Your task to perform on an android device: open app "eBay: The shopping marketplace" (install if not already installed) Image 0: 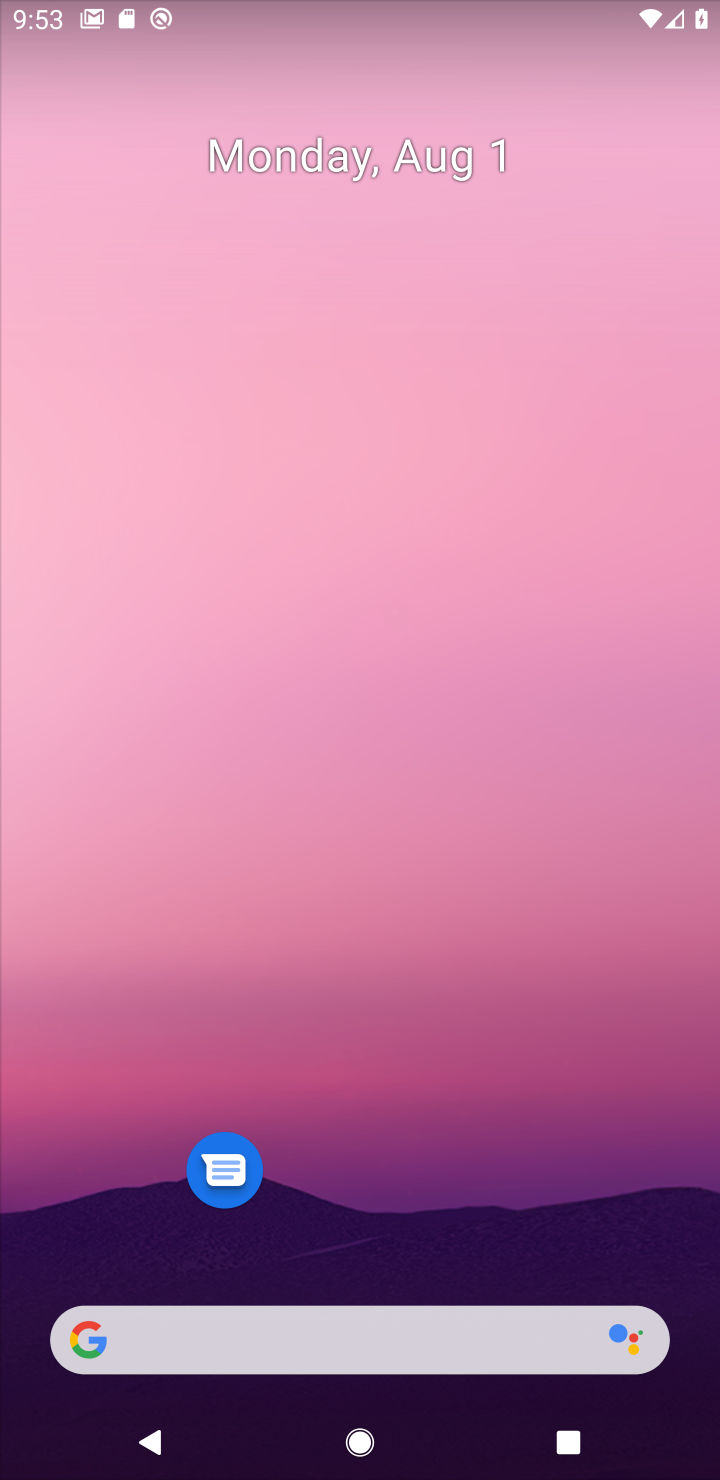
Step 0: drag from (249, 1413) to (446, 725)
Your task to perform on an android device: open app "eBay: The shopping marketplace" (install if not already installed) Image 1: 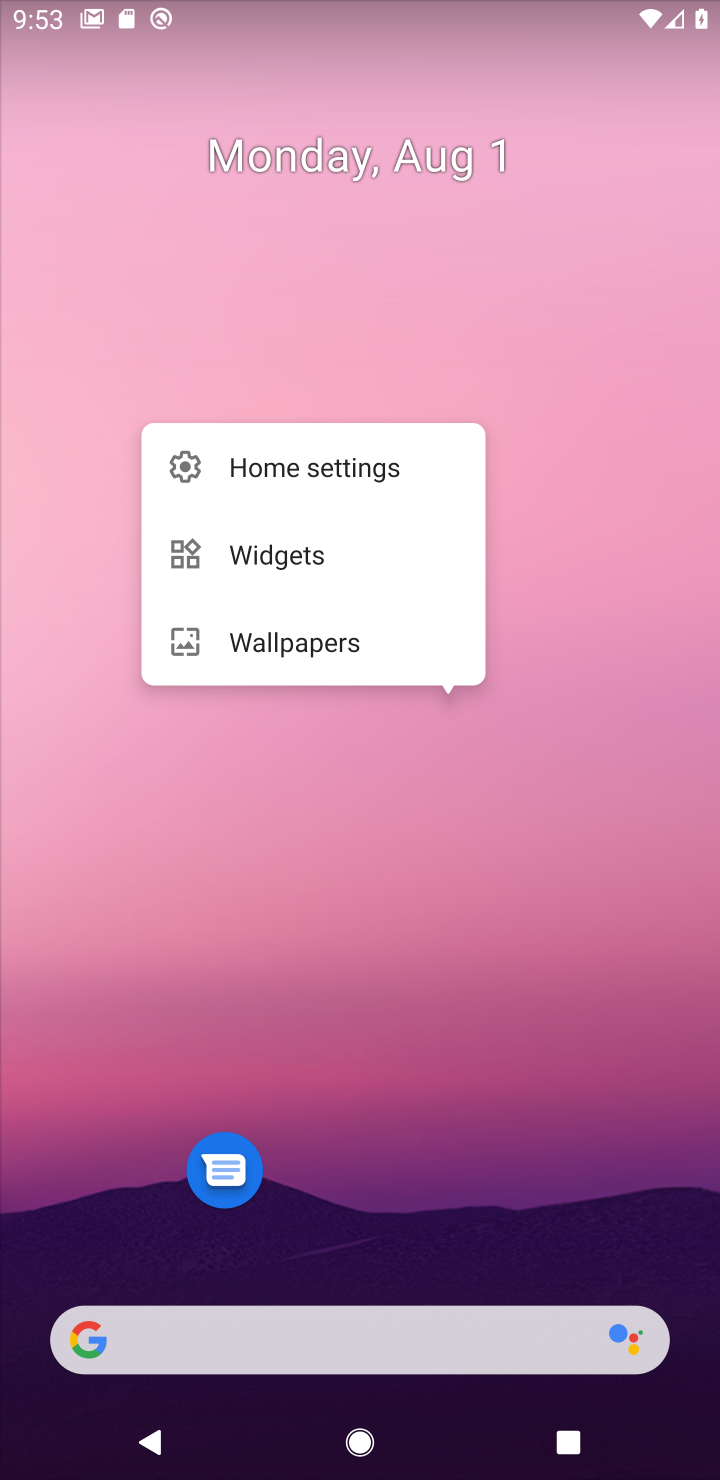
Step 1: drag from (199, 1251) to (450, 490)
Your task to perform on an android device: open app "eBay: The shopping marketplace" (install if not already installed) Image 2: 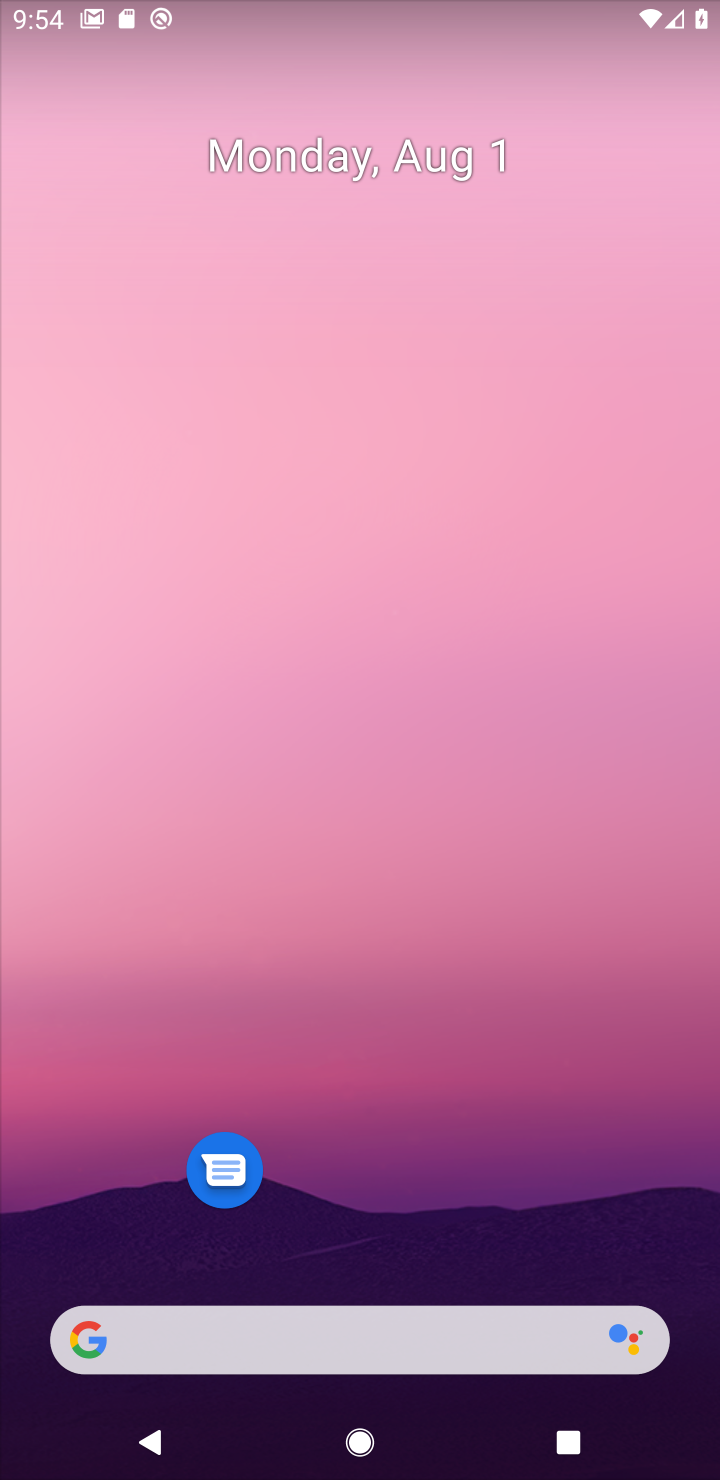
Step 2: click (360, 340)
Your task to perform on an android device: open app "eBay: The shopping marketplace" (install if not already installed) Image 3: 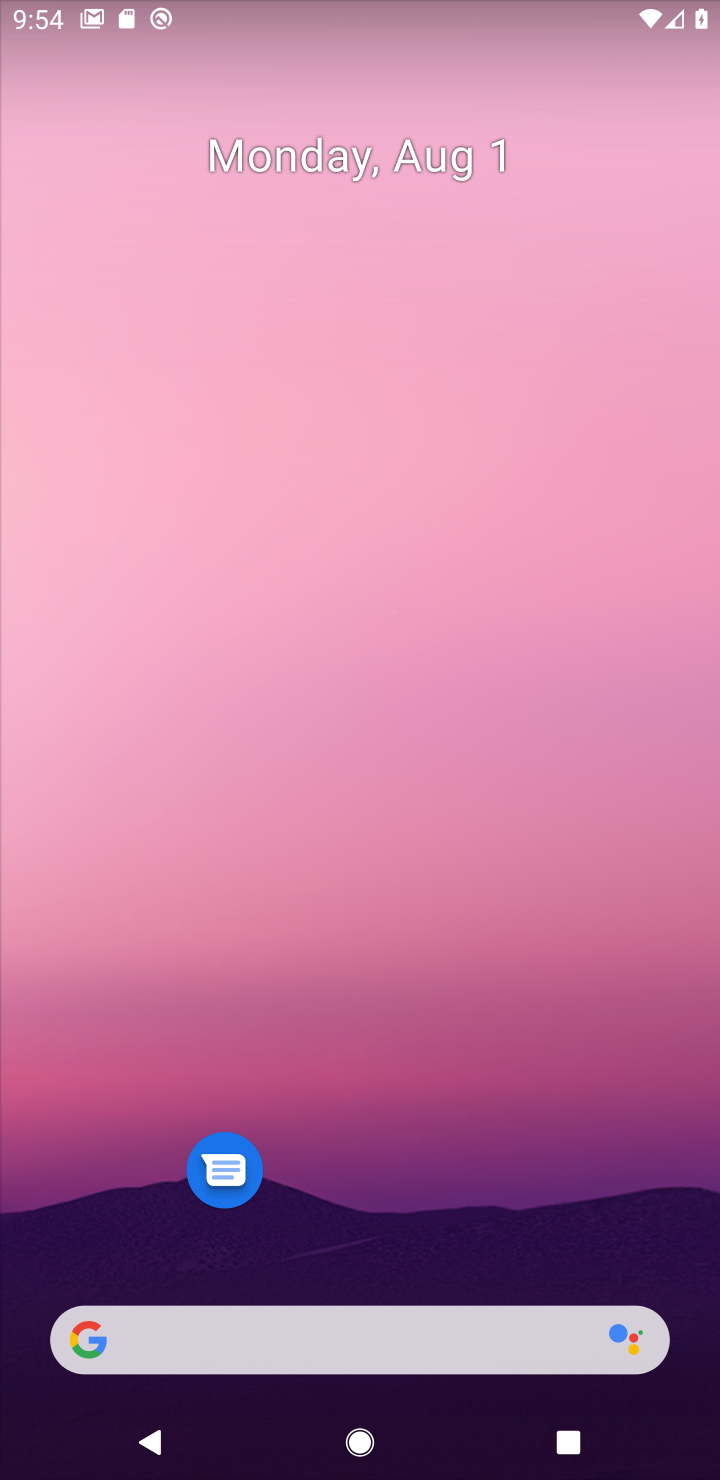
Step 3: drag from (299, 1039) to (220, 163)
Your task to perform on an android device: open app "eBay: The shopping marketplace" (install if not already installed) Image 4: 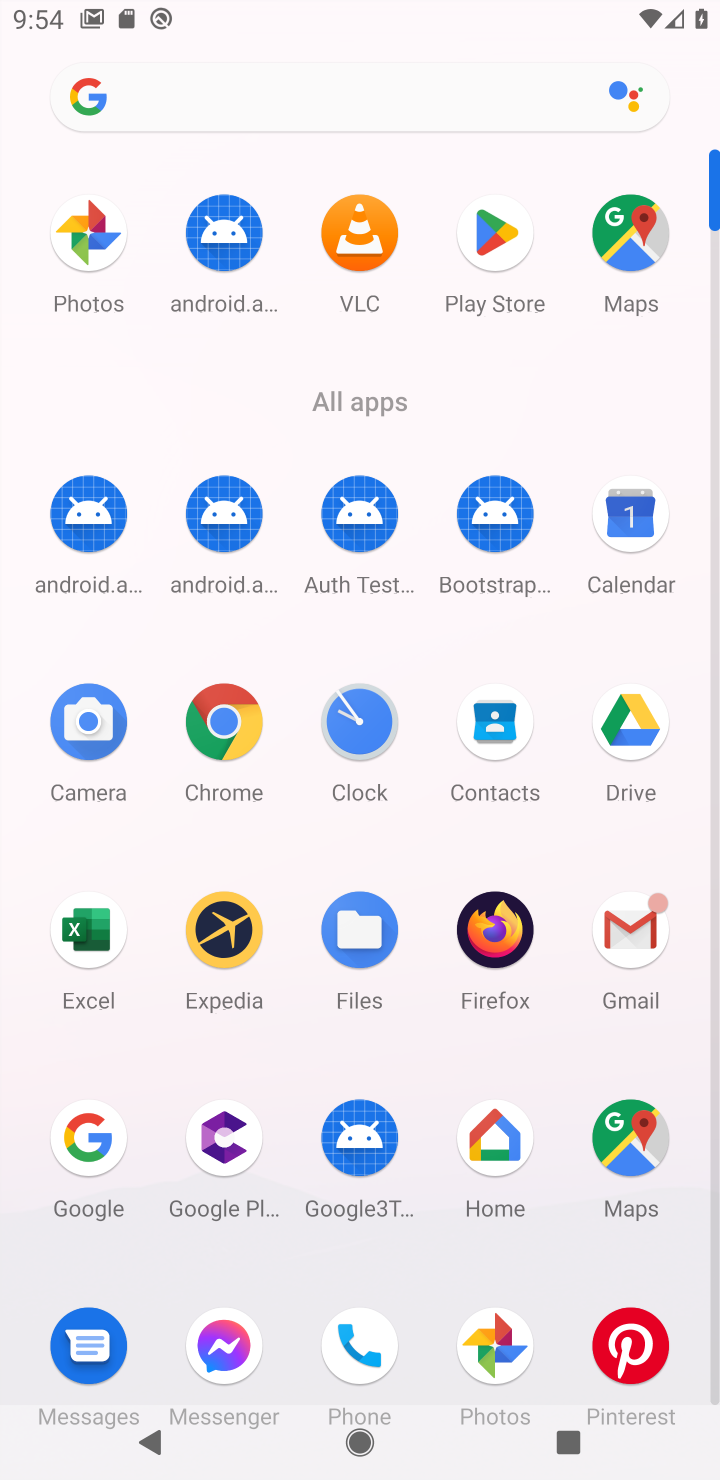
Step 4: click (501, 236)
Your task to perform on an android device: open app "eBay: The shopping marketplace" (install if not already installed) Image 5: 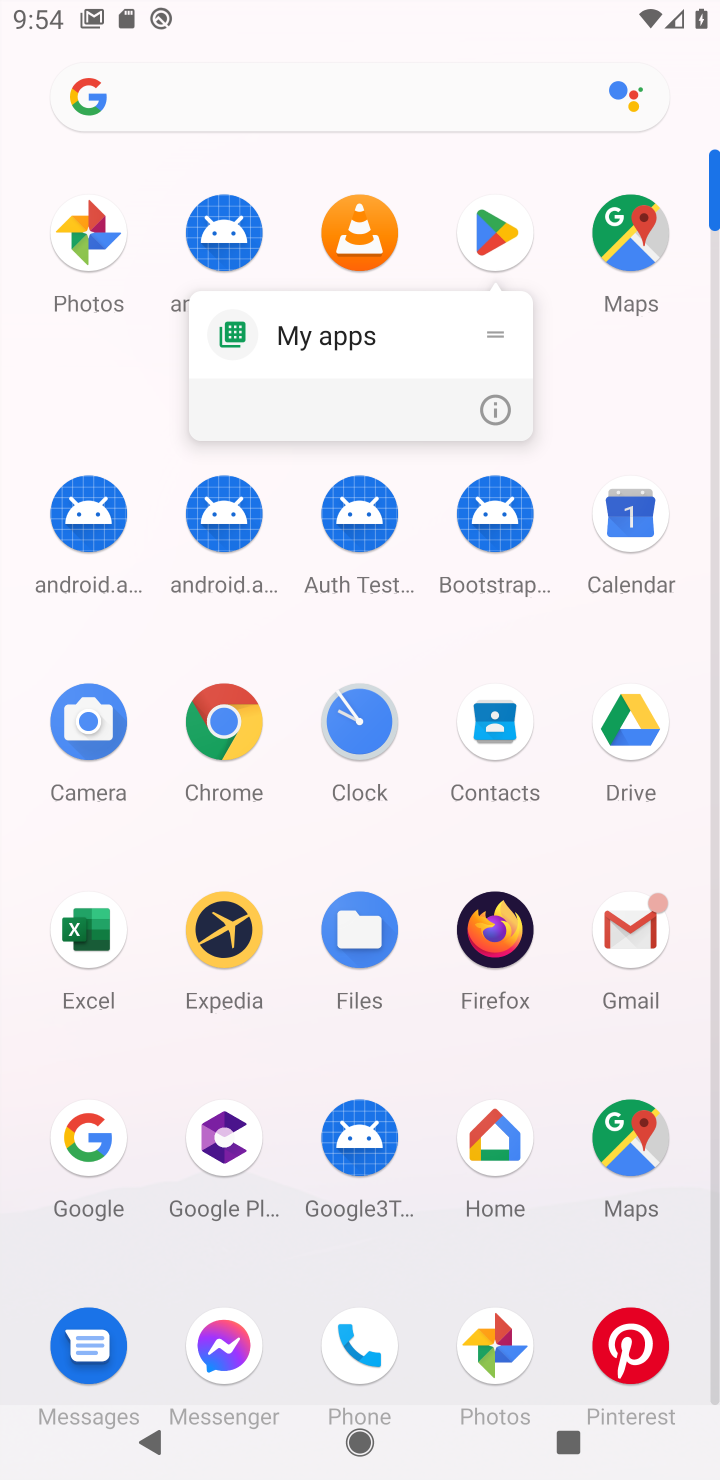
Step 5: click (492, 232)
Your task to perform on an android device: open app "eBay: The shopping marketplace" (install if not already installed) Image 6: 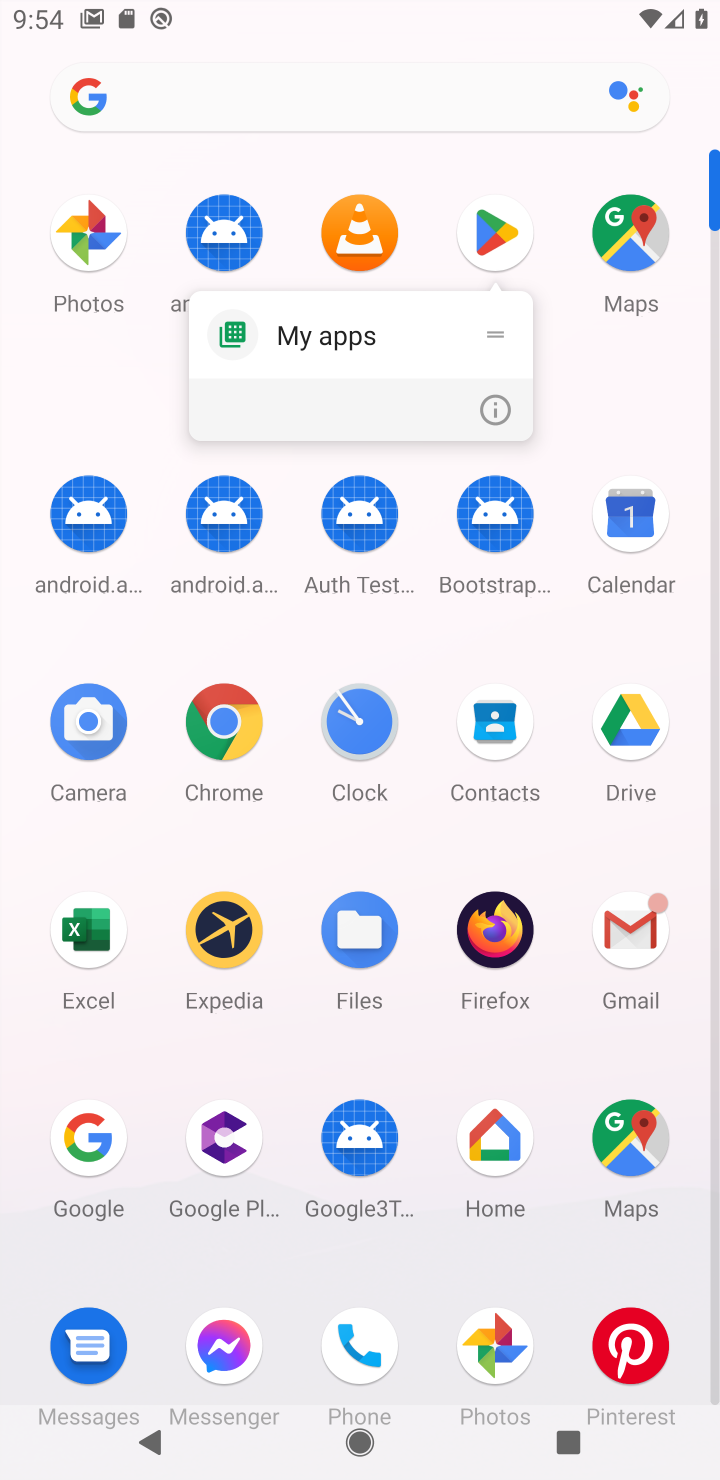
Step 6: click (491, 243)
Your task to perform on an android device: open app "eBay: The shopping marketplace" (install if not already installed) Image 7: 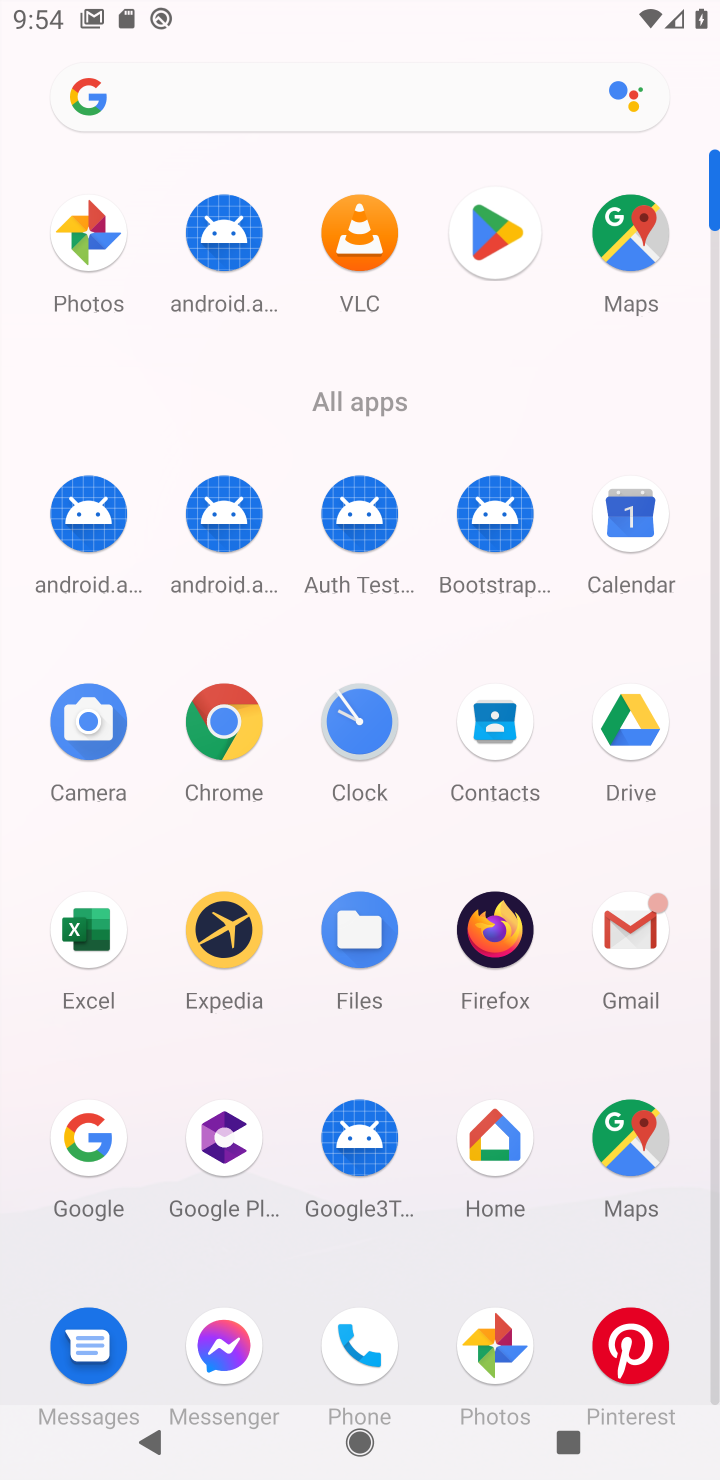
Step 7: click (495, 234)
Your task to perform on an android device: open app "eBay: The shopping marketplace" (install if not already installed) Image 8: 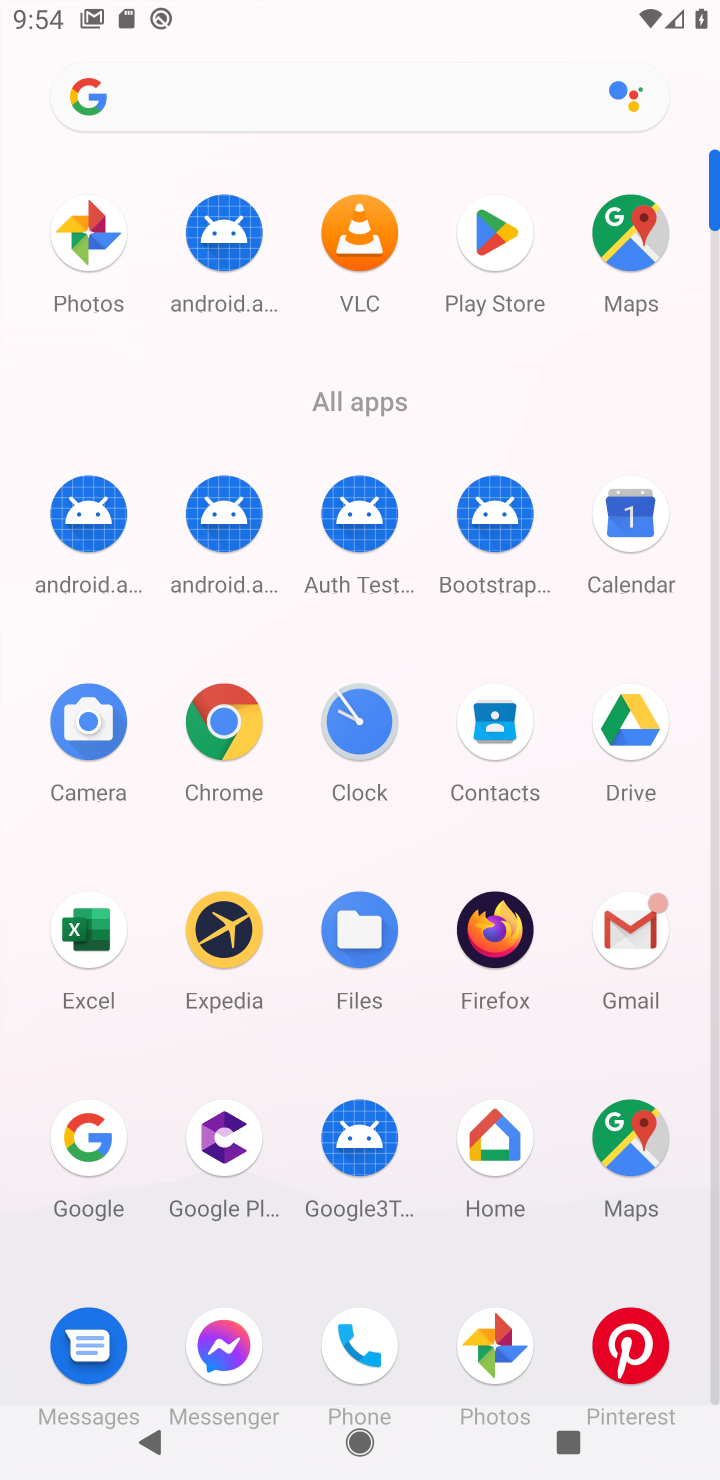
Step 8: click (495, 257)
Your task to perform on an android device: open app "eBay: The shopping marketplace" (install if not already installed) Image 9: 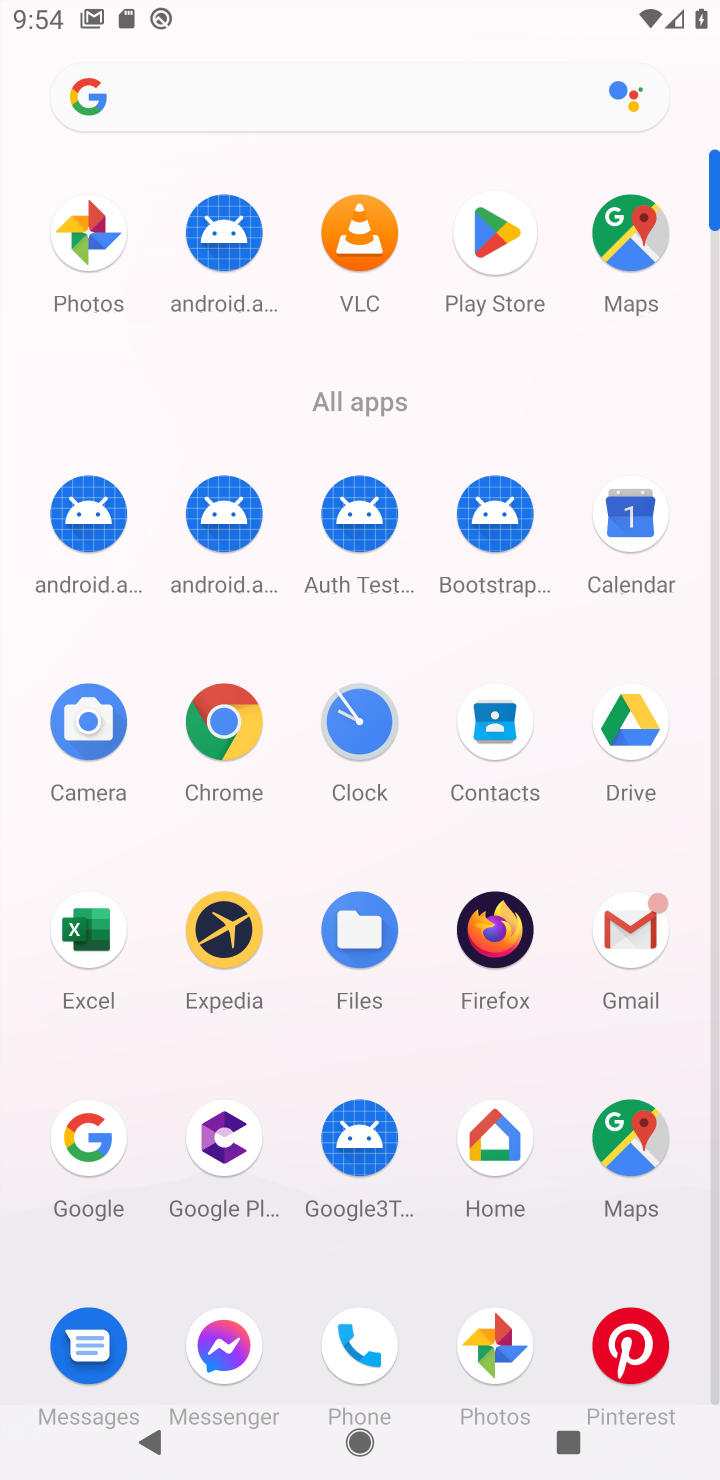
Step 9: click (515, 231)
Your task to perform on an android device: open app "eBay: The shopping marketplace" (install if not already installed) Image 10: 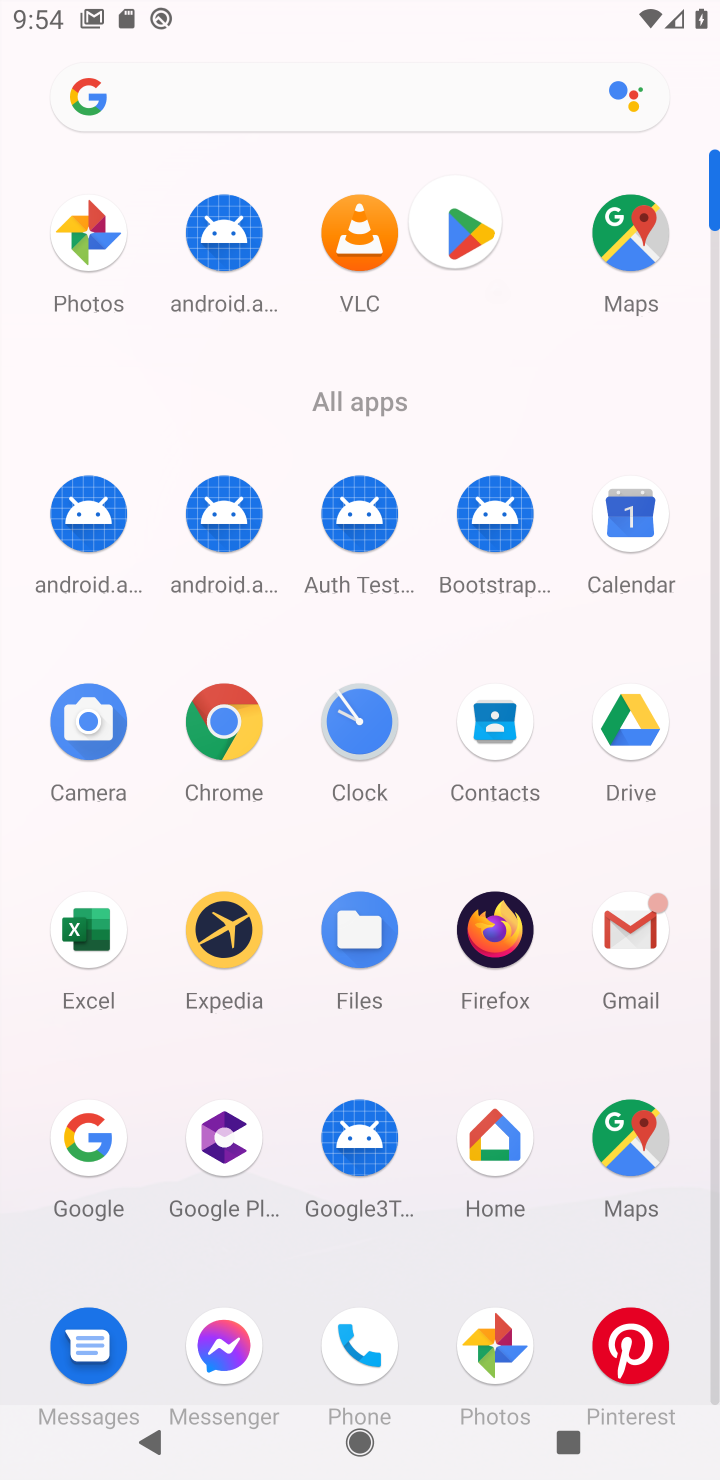
Step 10: click (495, 215)
Your task to perform on an android device: open app "eBay: The shopping marketplace" (install if not already installed) Image 11: 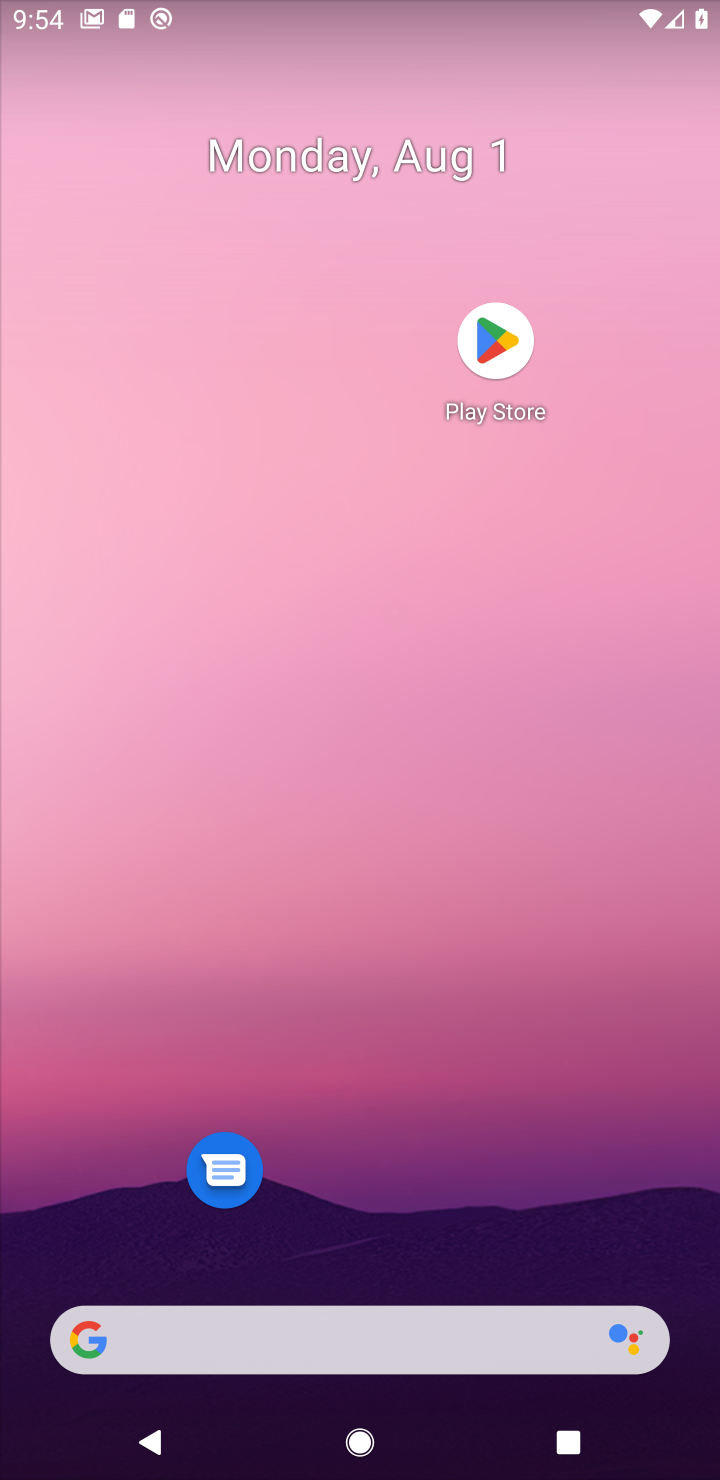
Step 11: drag from (355, 533) to (308, 258)
Your task to perform on an android device: open app "eBay: The shopping marketplace" (install if not already installed) Image 12: 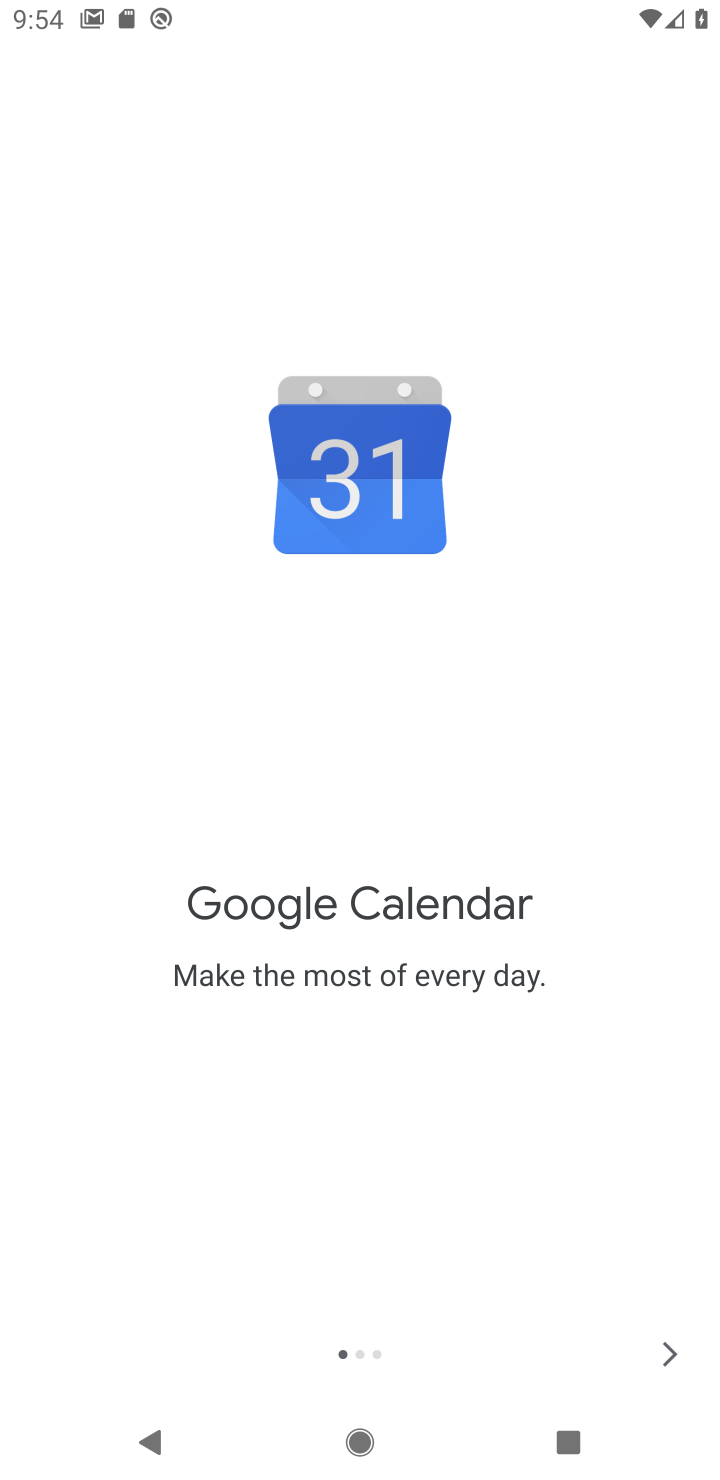
Step 12: drag from (487, 1089) to (476, 277)
Your task to perform on an android device: open app "eBay: The shopping marketplace" (install if not already installed) Image 13: 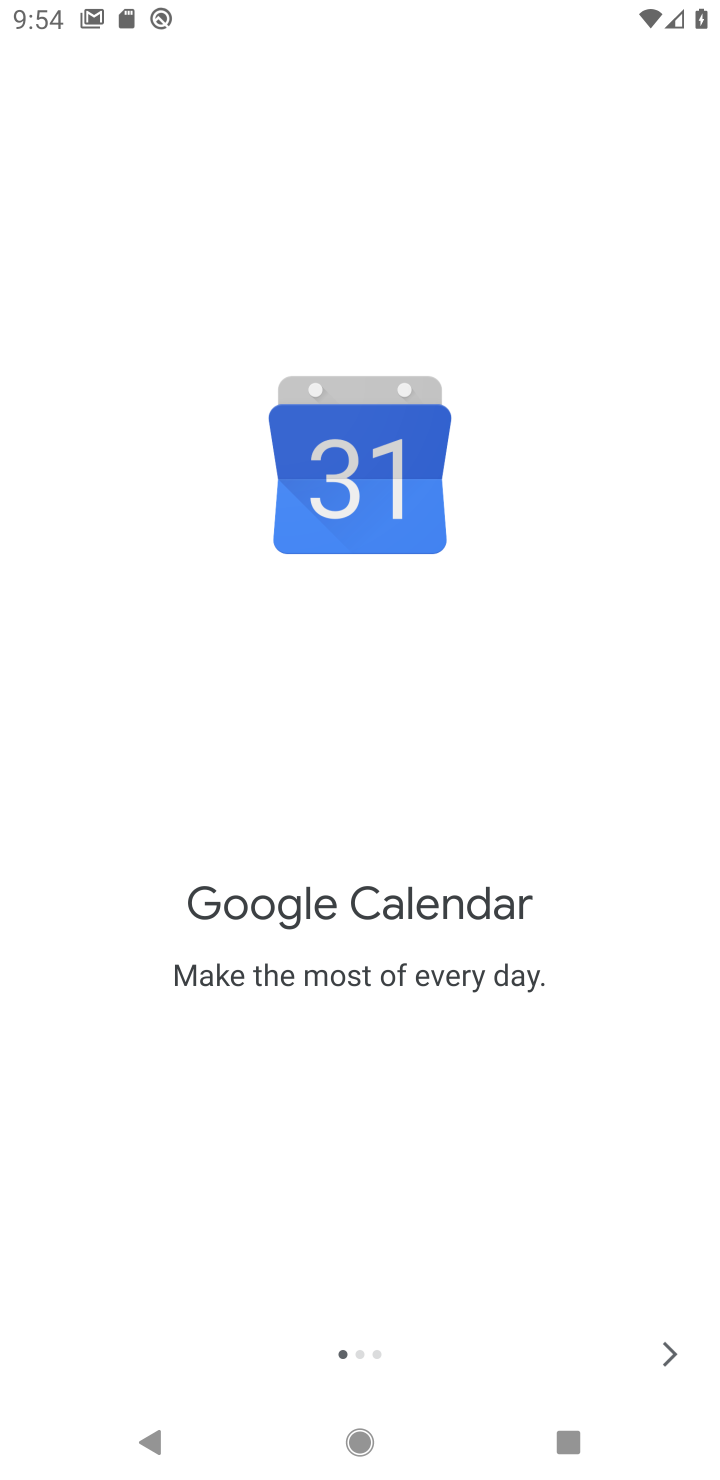
Step 13: press back button
Your task to perform on an android device: open app "eBay: The shopping marketplace" (install if not already installed) Image 14: 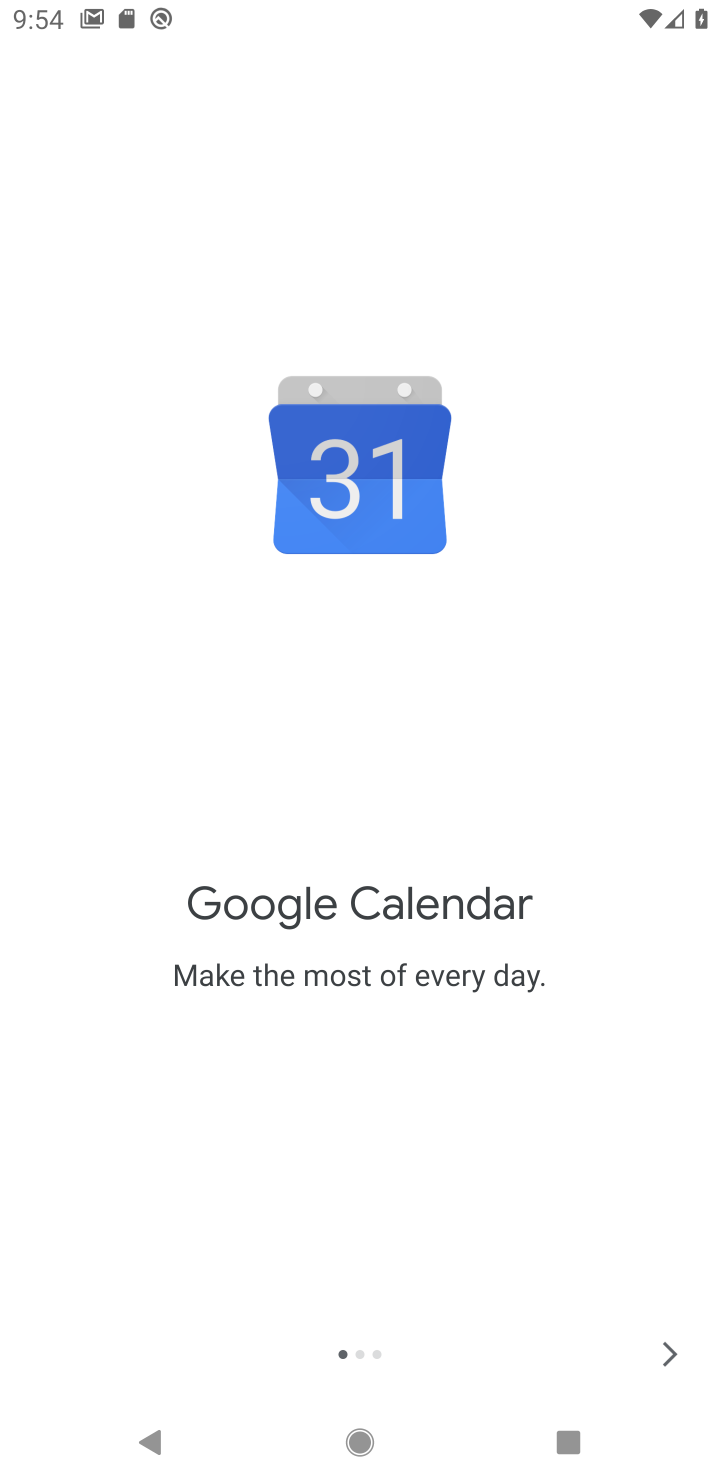
Step 14: press back button
Your task to perform on an android device: open app "eBay: The shopping marketplace" (install if not already installed) Image 15: 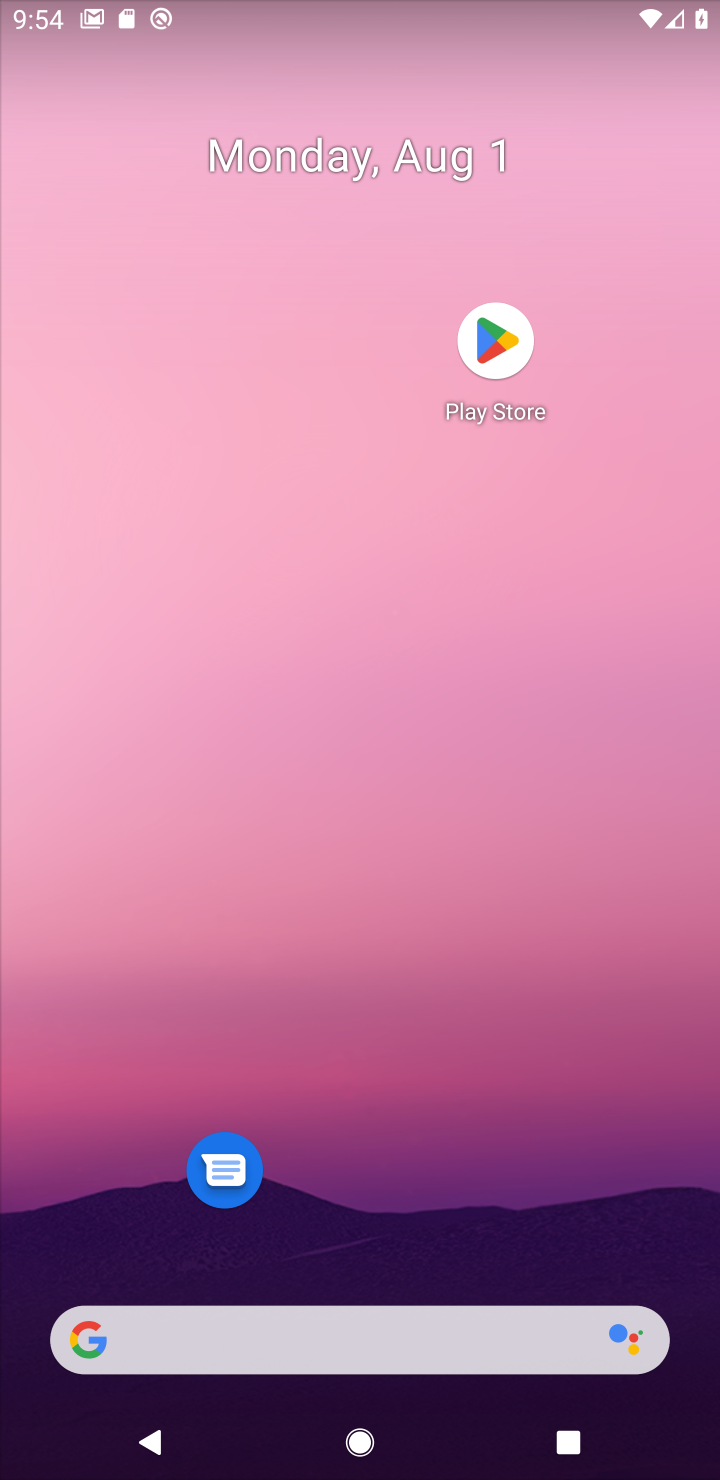
Step 15: press back button
Your task to perform on an android device: open app "eBay: The shopping marketplace" (install if not already installed) Image 16: 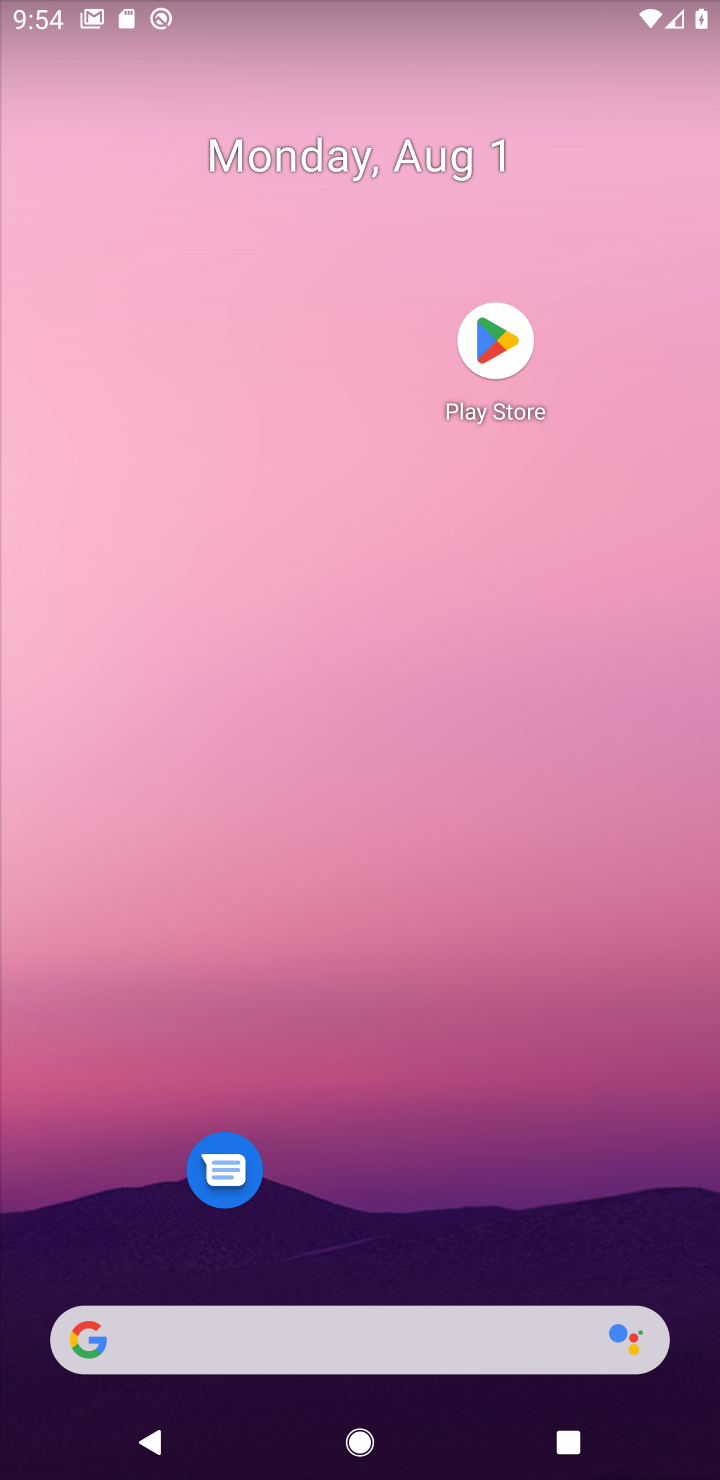
Step 16: press home button
Your task to perform on an android device: open app "eBay: The shopping marketplace" (install if not already installed) Image 17: 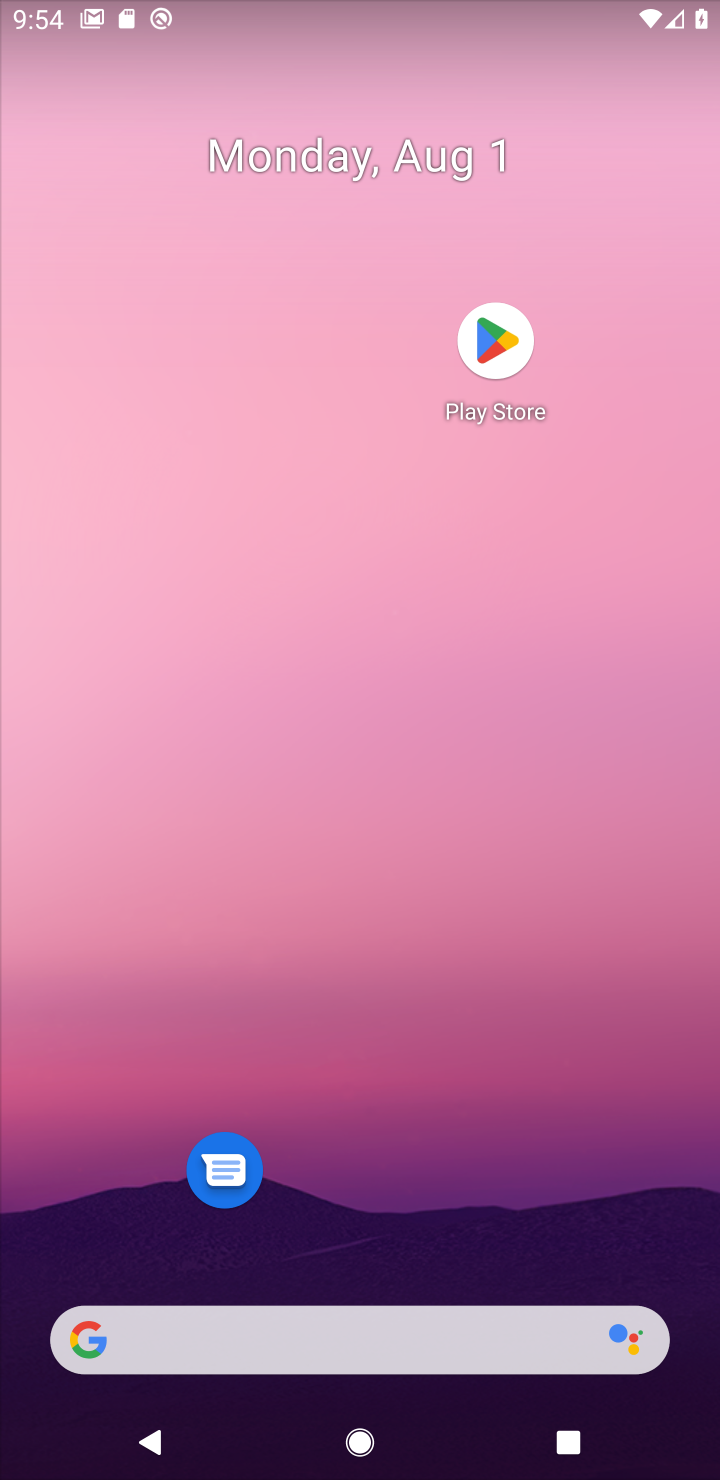
Step 17: drag from (426, 1284) to (477, 24)
Your task to perform on an android device: open app "eBay: The shopping marketplace" (install if not already installed) Image 18: 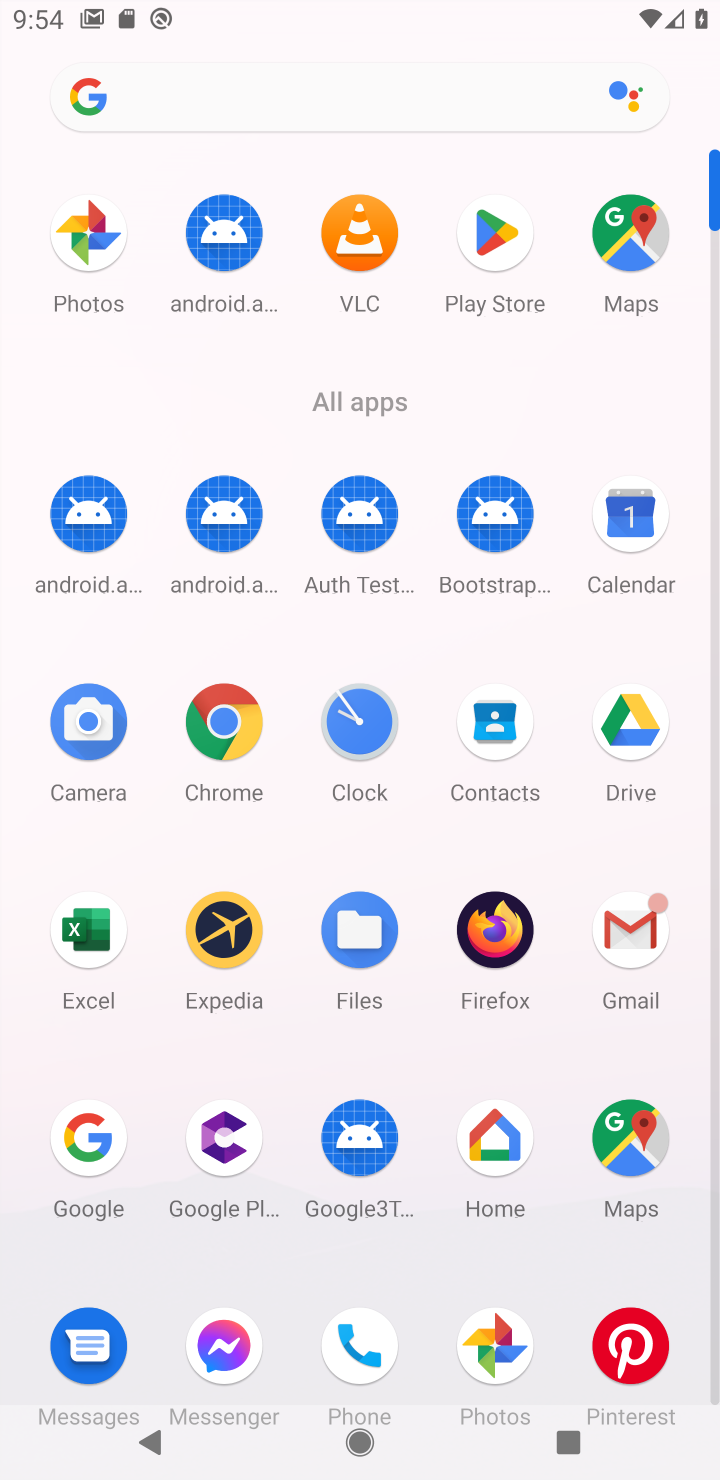
Step 18: drag from (486, 673) to (489, 10)
Your task to perform on an android device: open app "eBay: The shopping marketplace" (install if not already installed) Image 19: 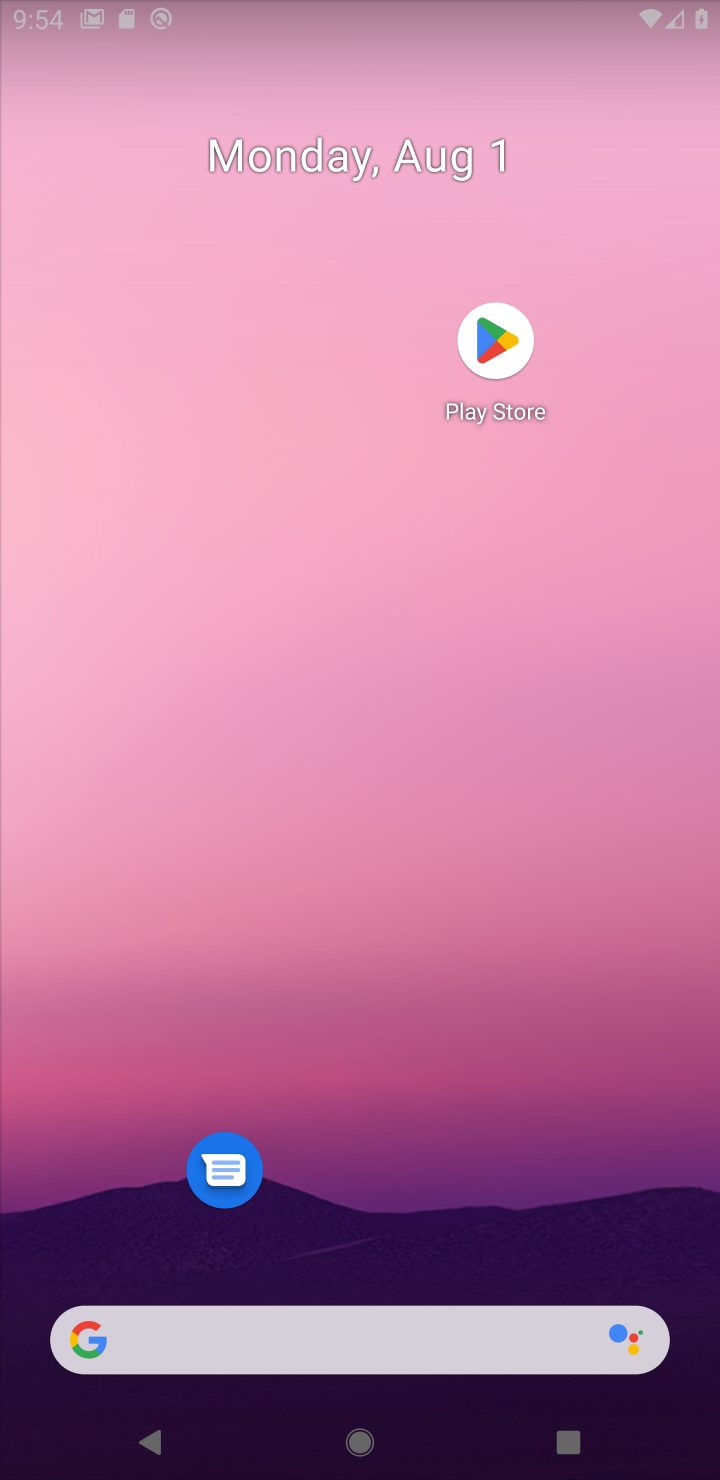
Step 19: click (496, 235)
Your task to perform on an android device: open app "eBay: The shopping marketplace" (install if not already installed) Image 20: 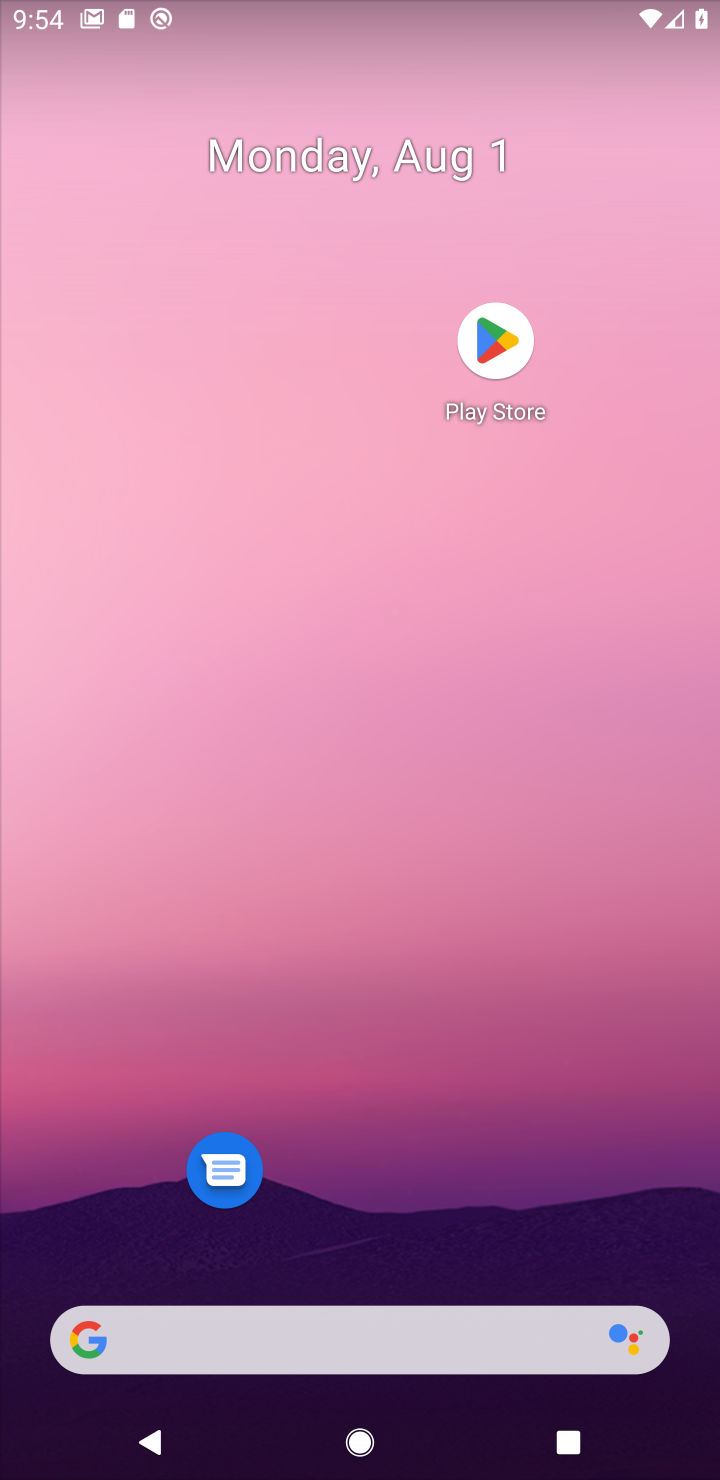
Step 20: click (496, 235)
Your task to perform on an android device: open app "eBay: The shopping marketplace" (install if not already installed) Image 21: 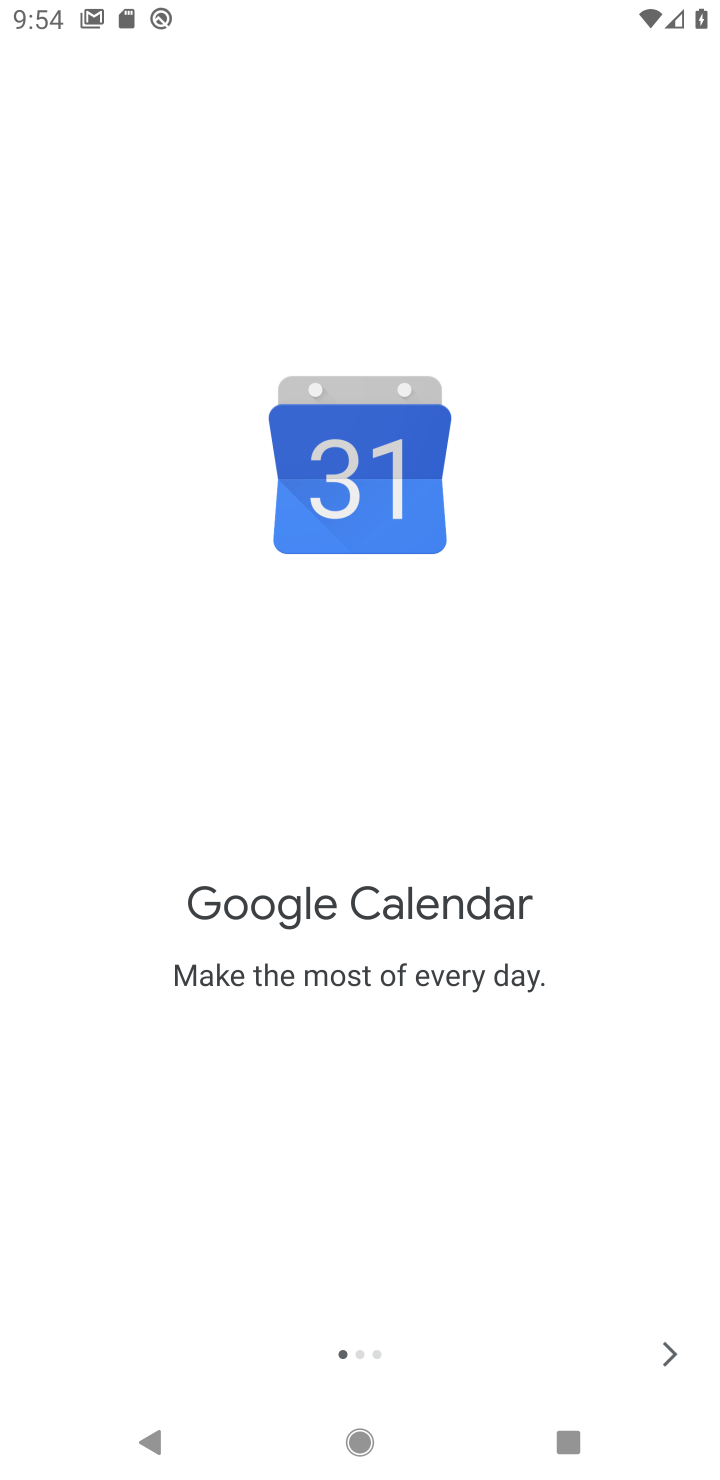
Step 21: drag from (396, 1121) to (271, 155)
Your task to perform on an android device: open app "eBay: The shopping marketplace" (install if not already installed) Image 22: 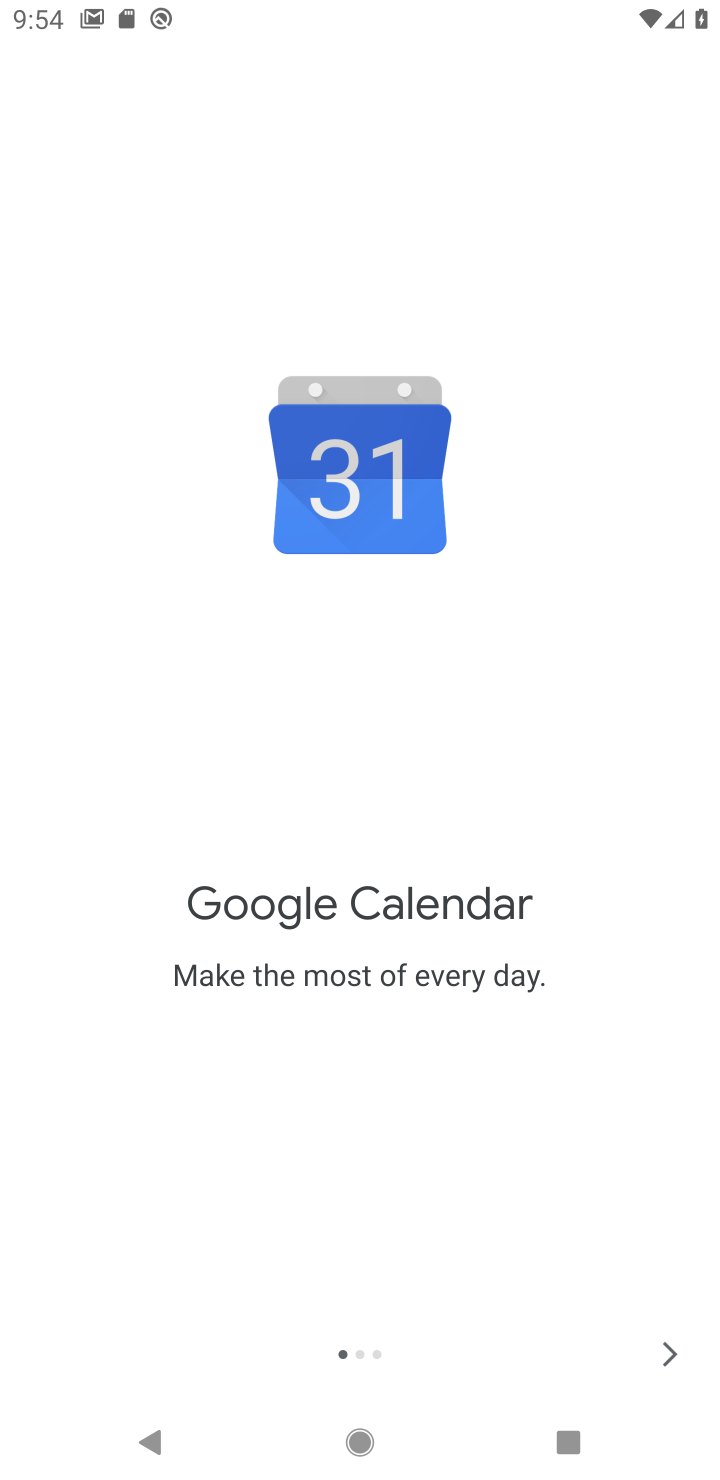
Step 22: press back button
Your task to perform on an android device: open app "eBay: The shopping marketplace" (install if not already installed) Image 23: 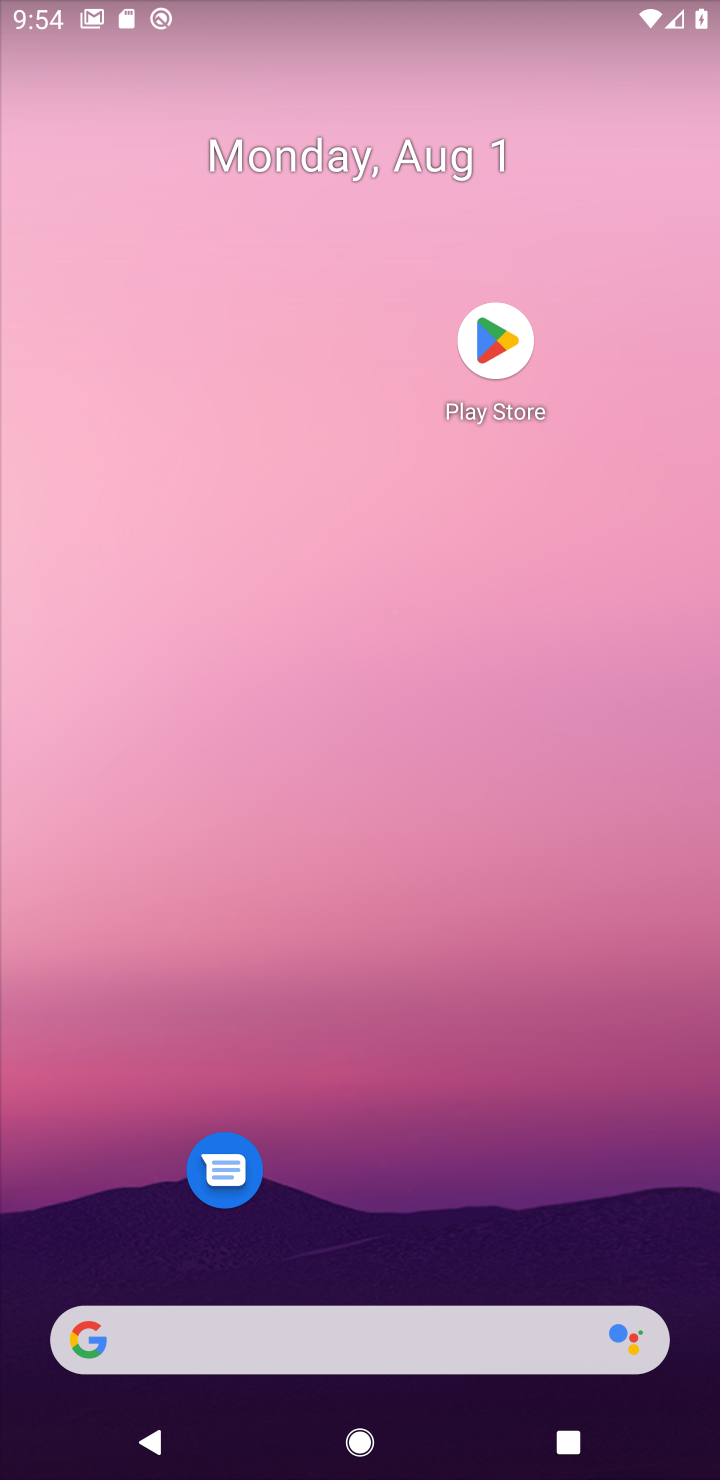
Step 23: press home button
Your task to perform on an android device: open app "eBay: The shopping marketplace" (install if not already installed) Image 24: 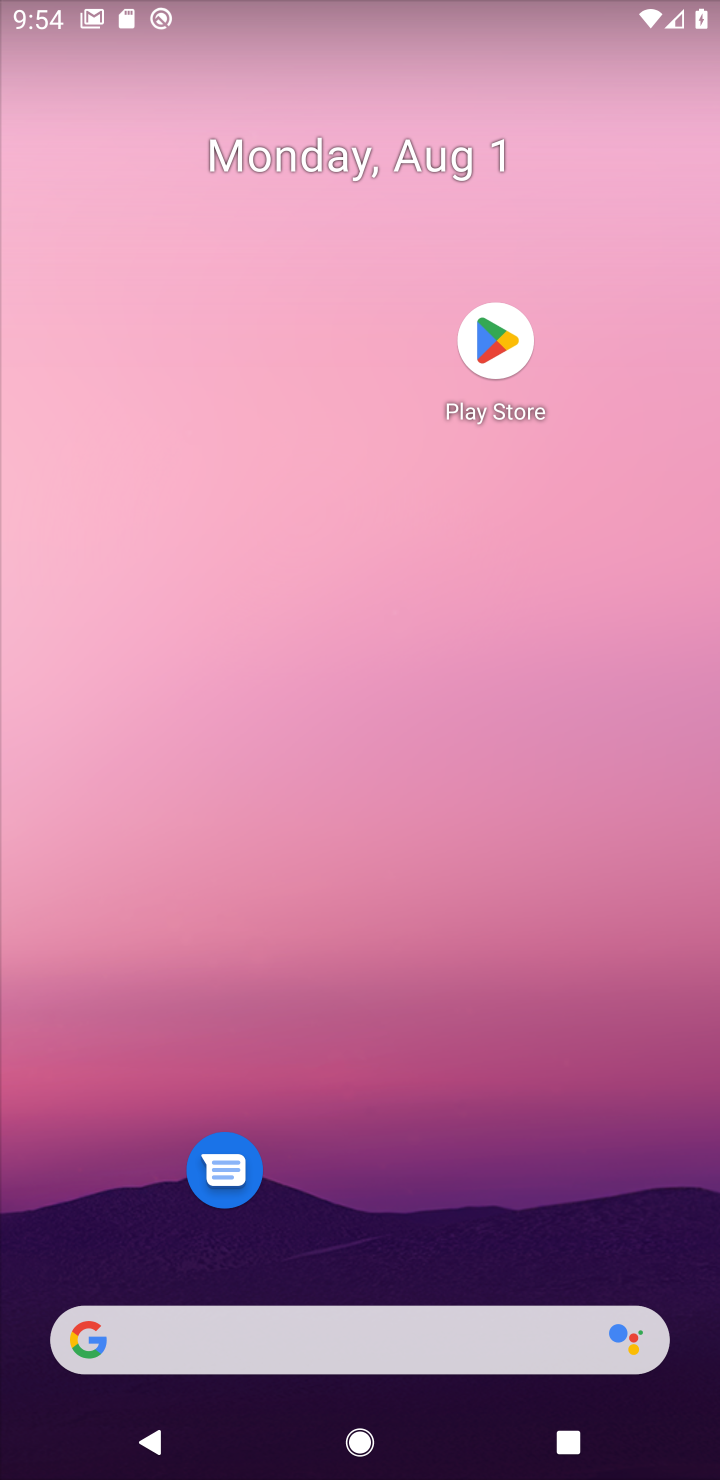
Step 24: drag from (402, 455) to (393, 365)
Your task to perform on an android device: open app "eBay: The shopping marketplace" (install if not already installed) Image 25: 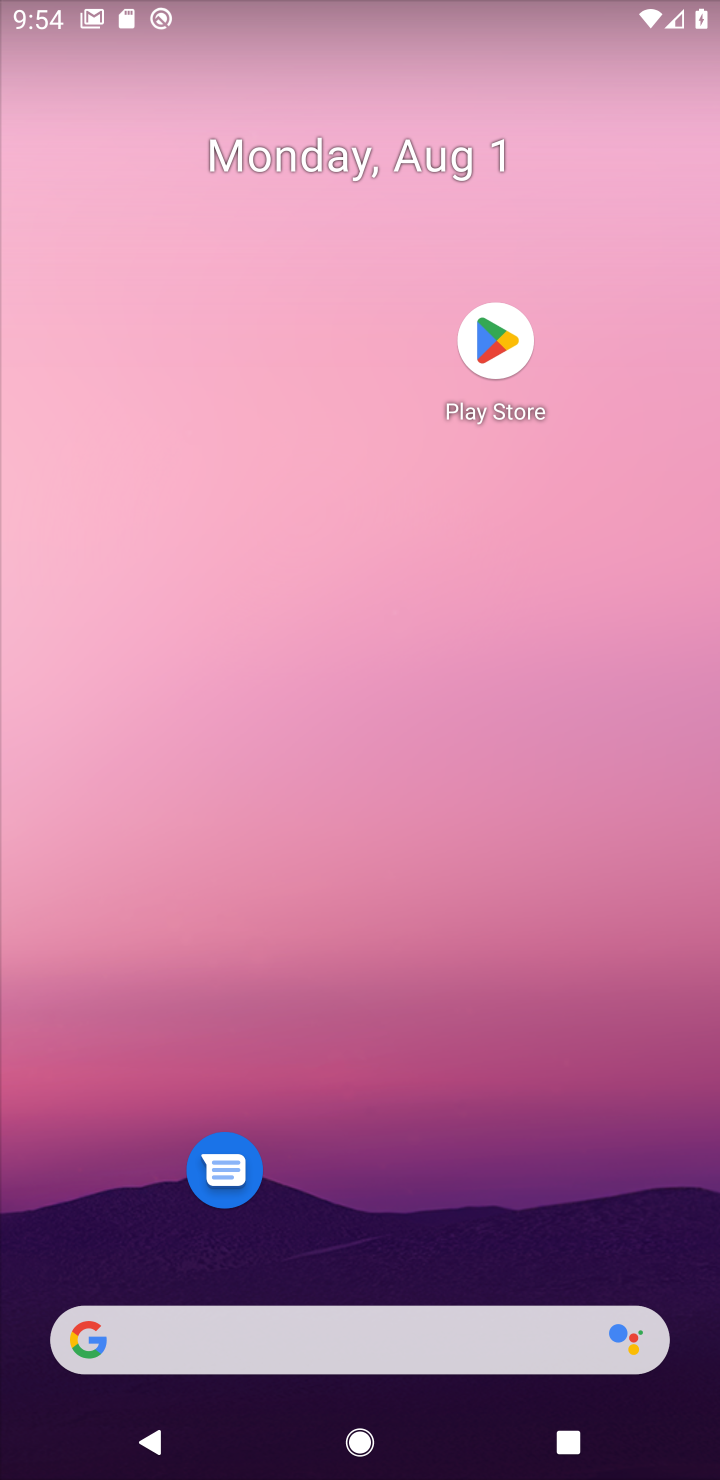
Step 25: click (543, 394)
Your task to perform on an android device: open app "eBay: The shopping marketplace" (install if not already installed) Image 26: 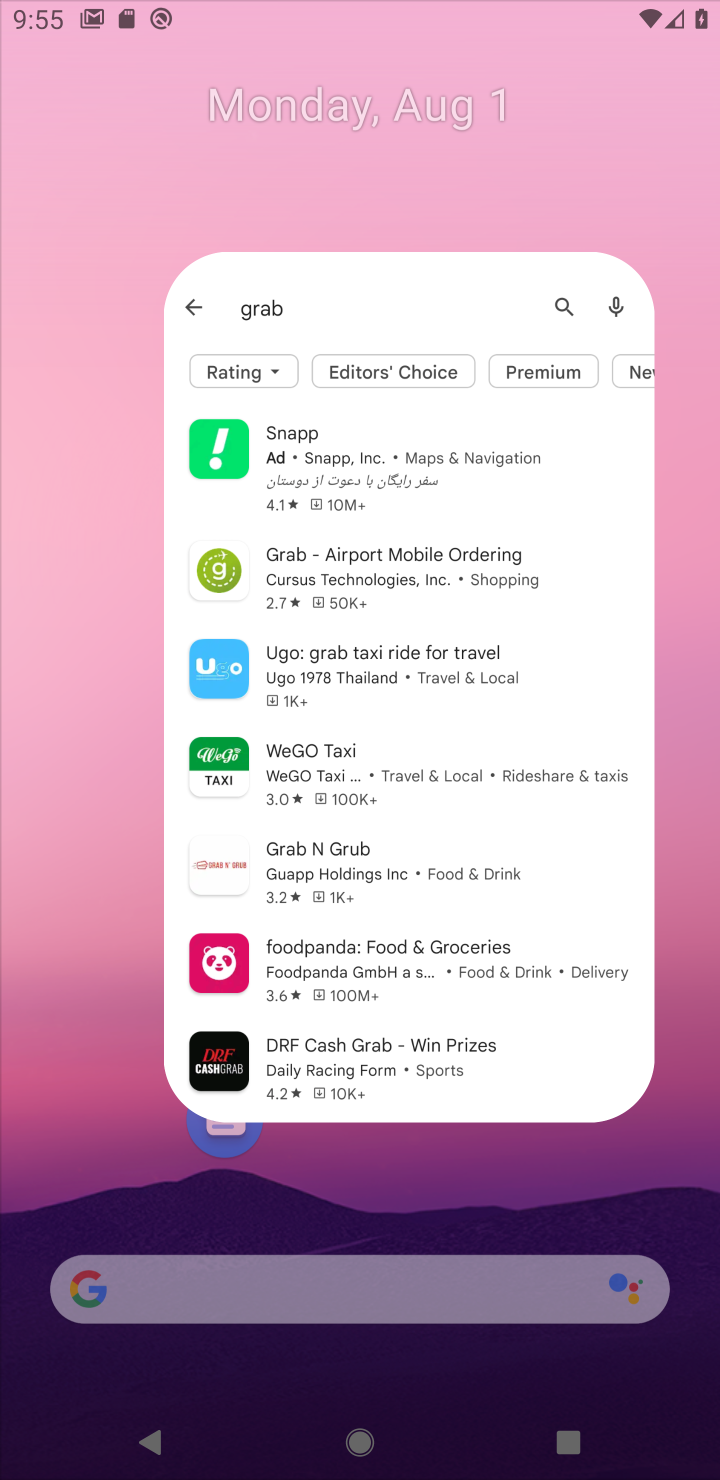
Step 26: drag from (432, 1104) to (462, 322)
Your task to perform on an android device: open app "eBay: The shopping marketplace" (install if not already installed) Image 27: 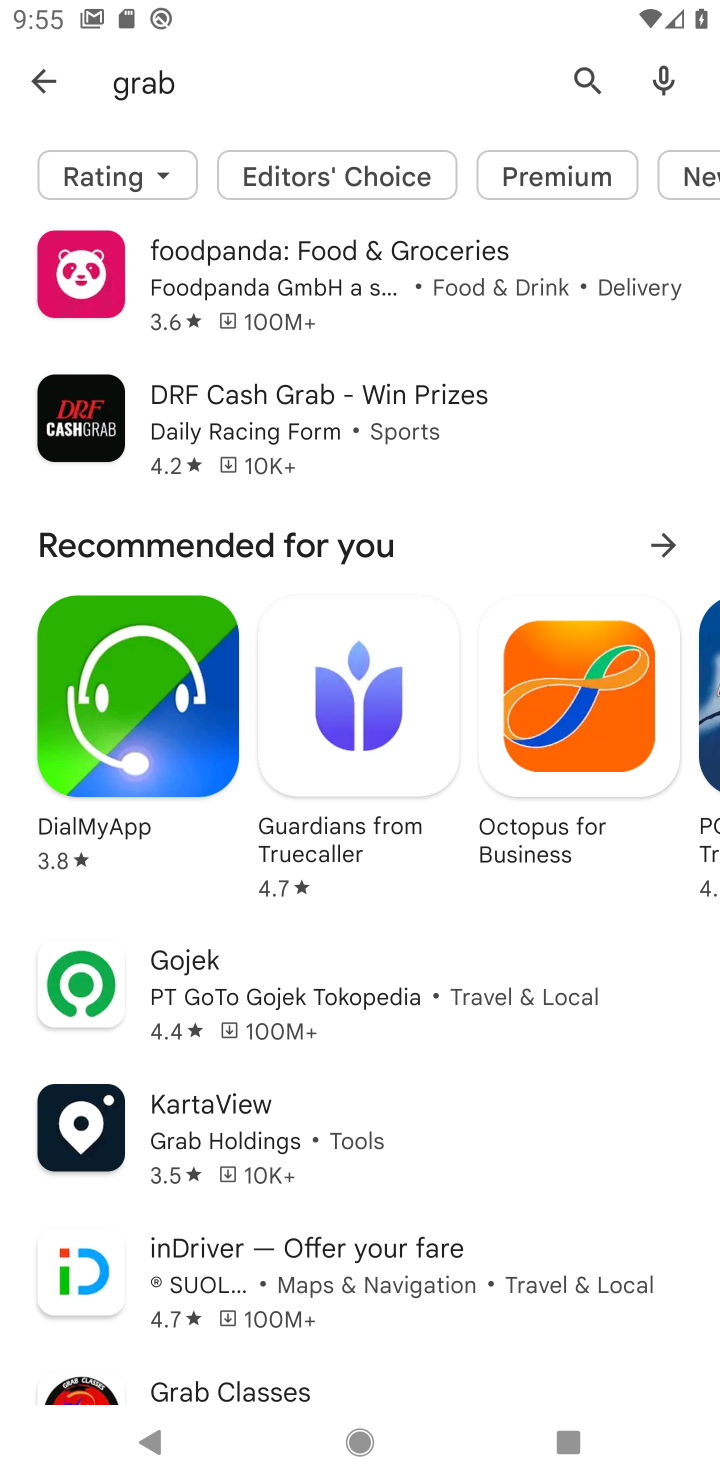
Step 27: click (27, 69)
Your task to perform on an android device: open app "eBay: The shopping marketplace" (install if not already installed) Image 28: 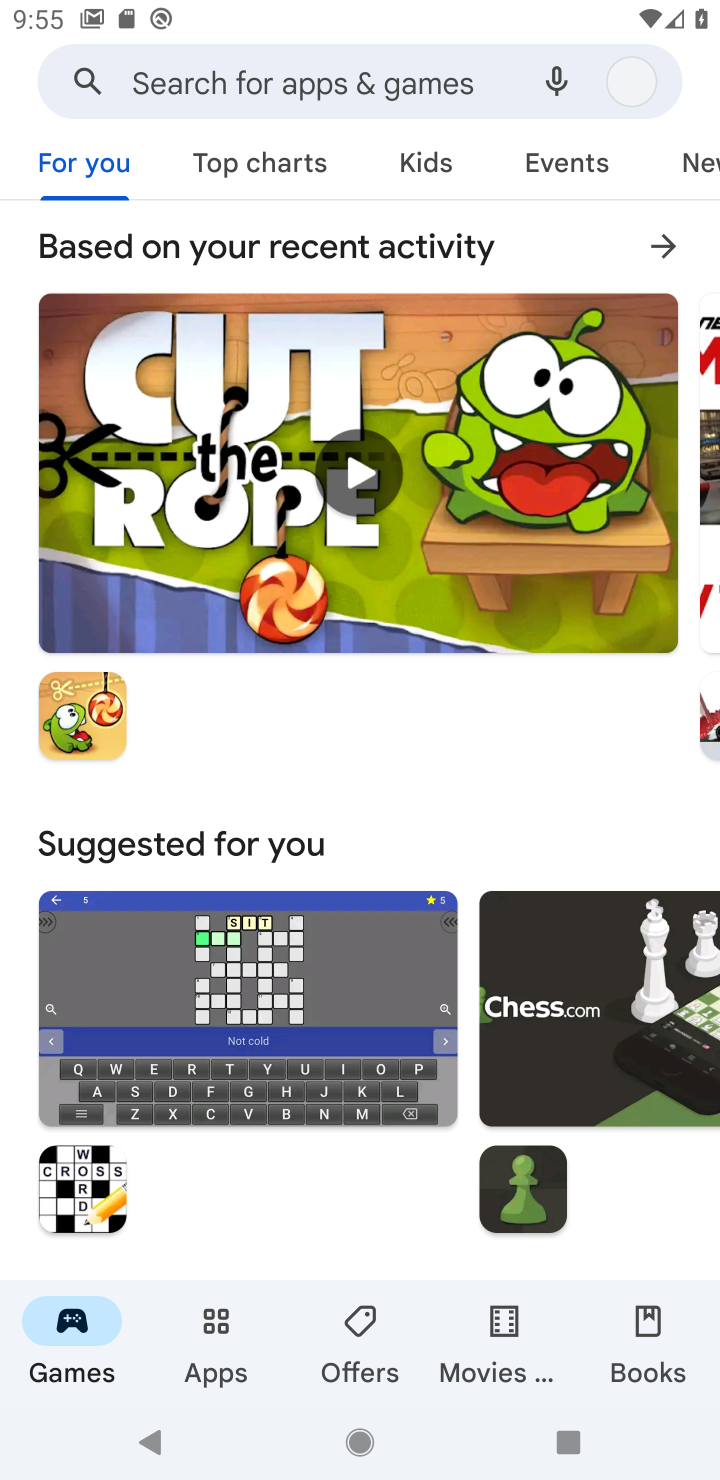
Step 28: click (190, 69)
Your task to perform on an android device: open app "eBay: The shopping marketplace" (install if not already installed) Image 29: 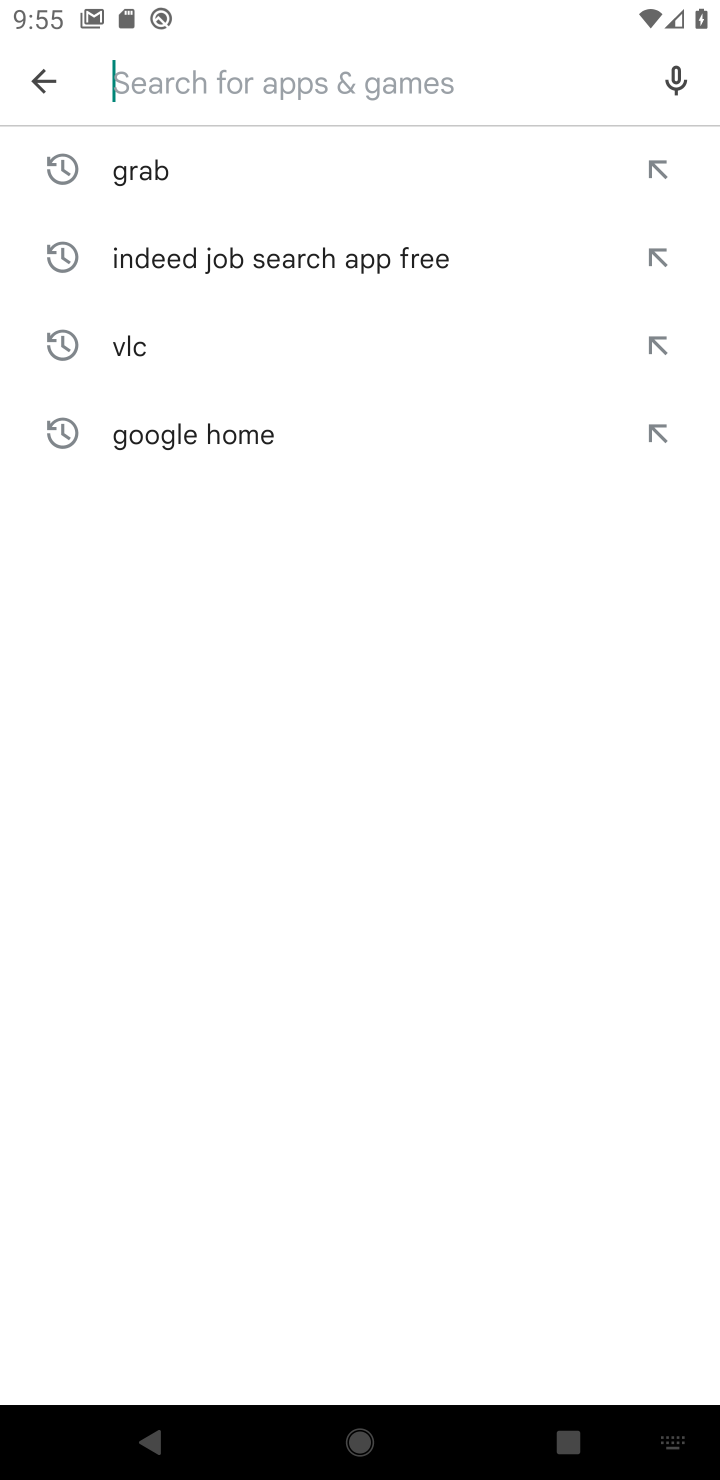
Step 29: type "ebay"
Your task to perform on an android device: open app "eBay: The shopping marketplace" (install if not already installed) Image 30: 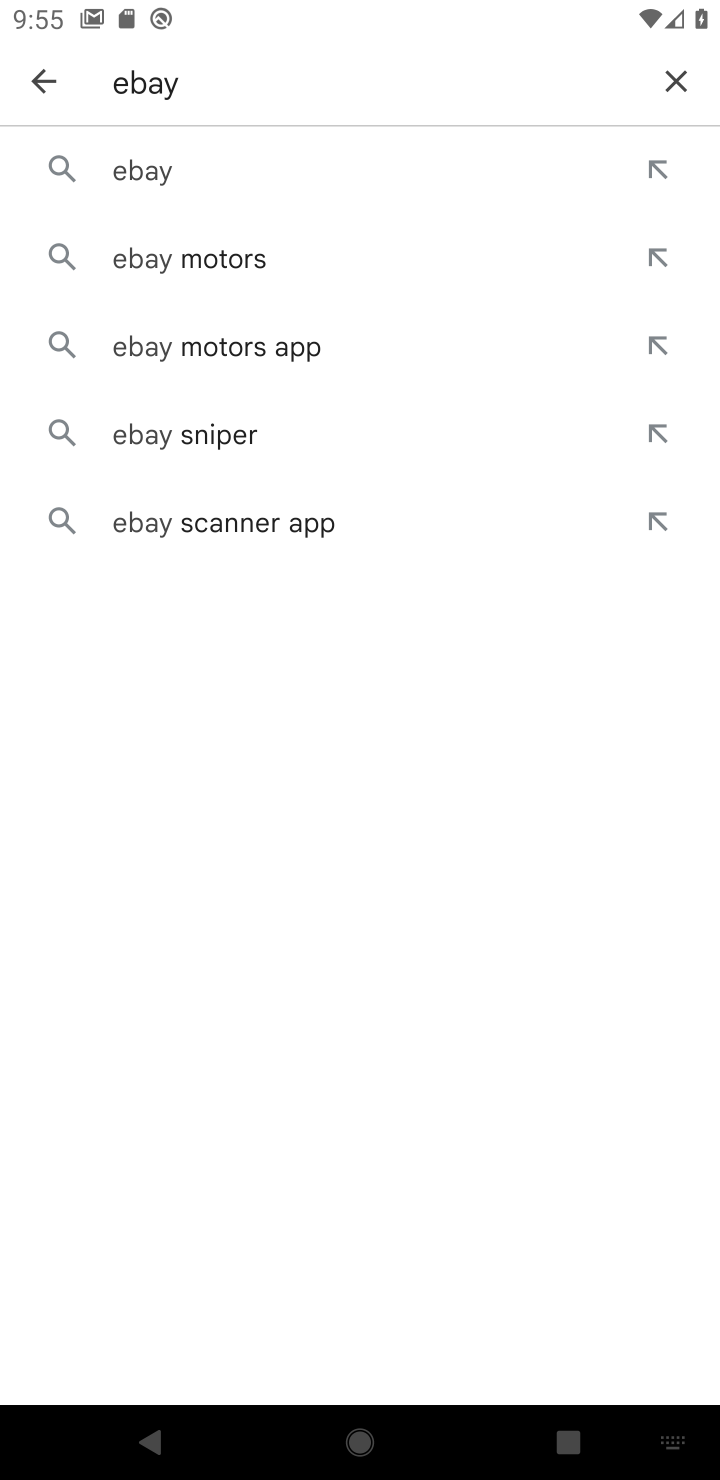
Step 30: click (130, 159)
Your task to perform on an android device: open app "eBay: The shopping marketplace" (install if not already installed) Image 31: 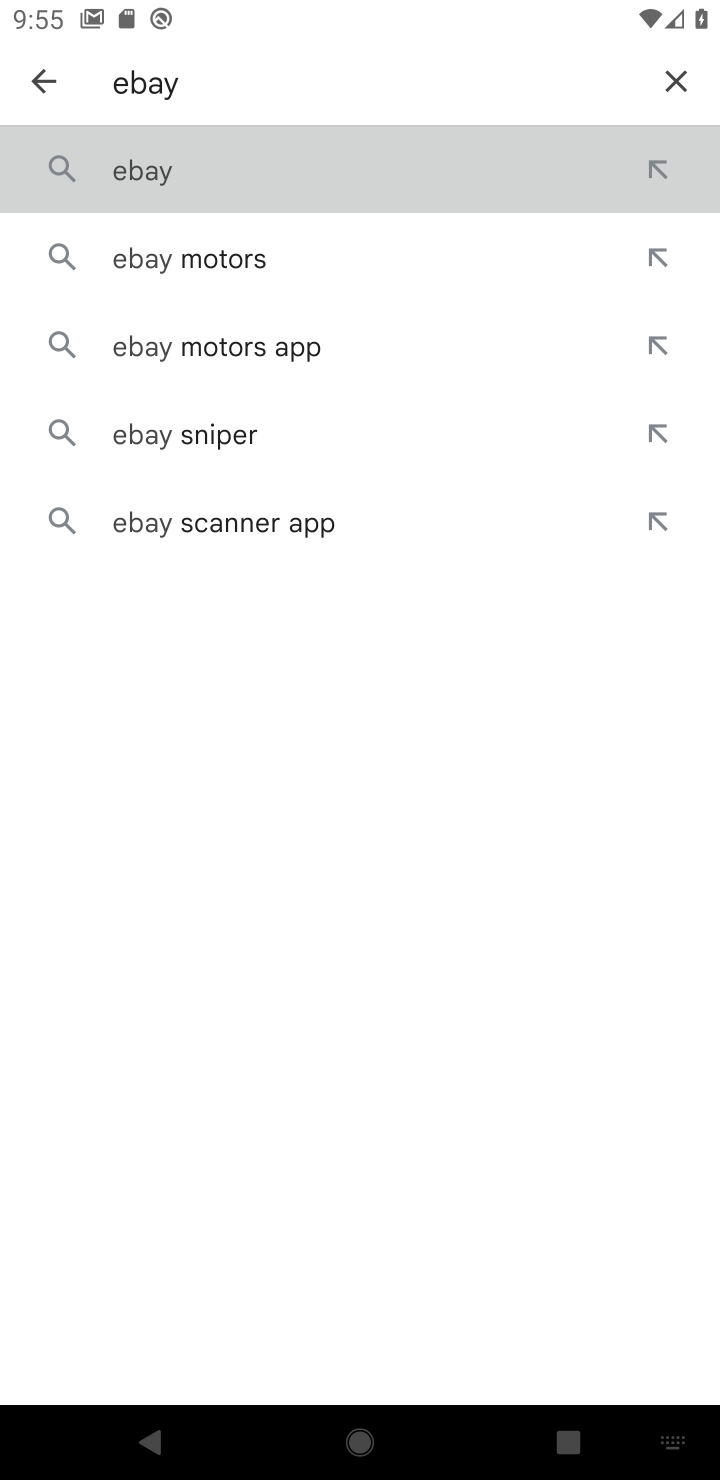
Step 31: click (141, 159)
Your task to perform on an android device: open app "eBay: The shopping marketplace" (install if not already installed) Image 32: 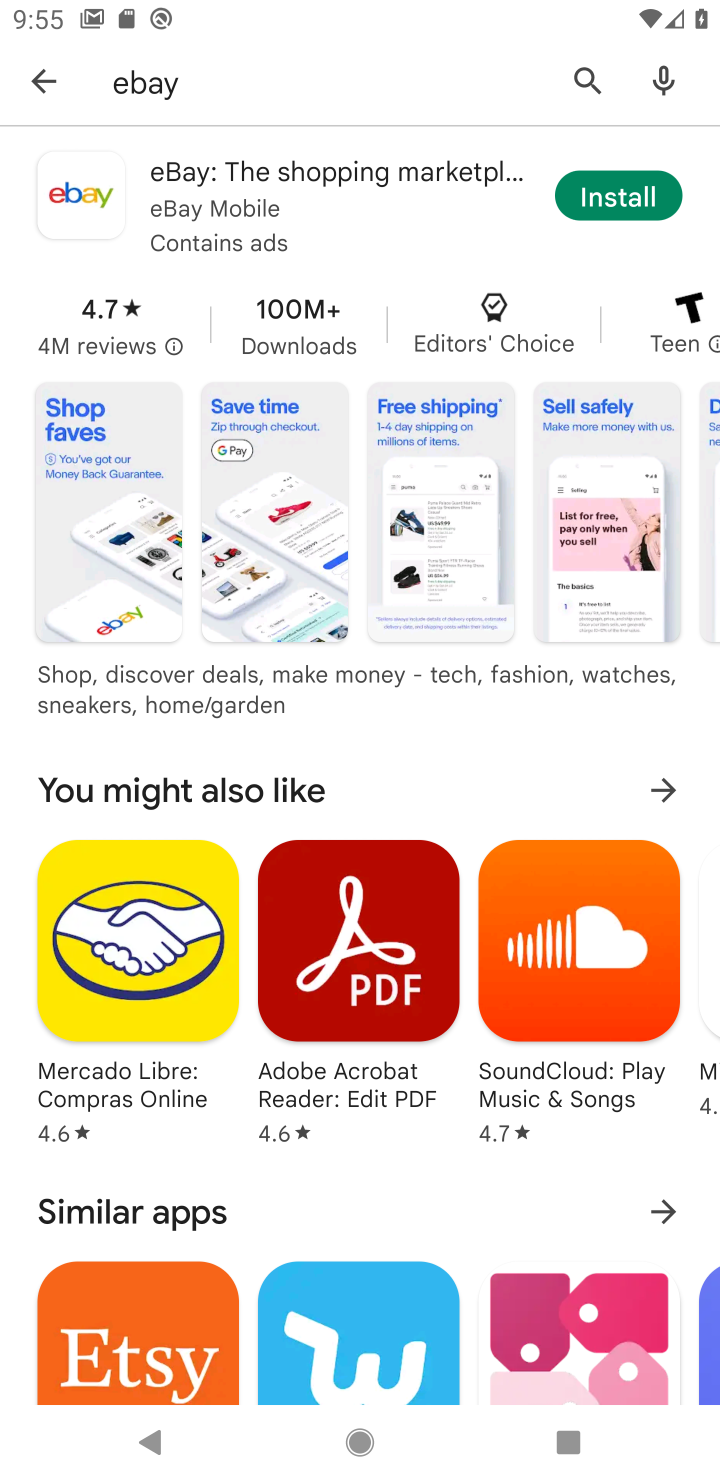
Step 32: click (618, 189)
Your task to perform on an android device: open app "eBay: The shopping marketplace" (install if not already installed) Image 33: 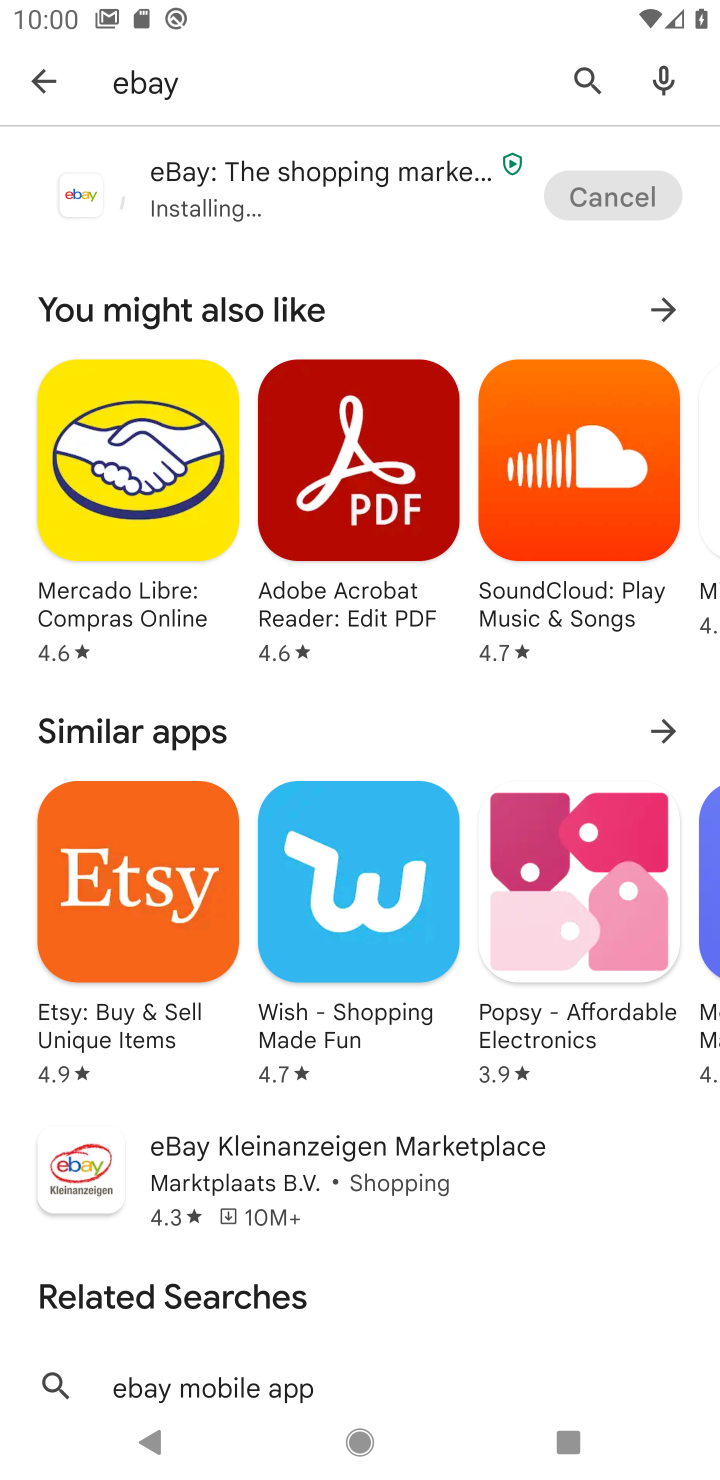
Step 33: click (618, 202)
Your task to perform on an android device: open app "eBay: The shopping marketplace" (install if not already installed) Image 34: 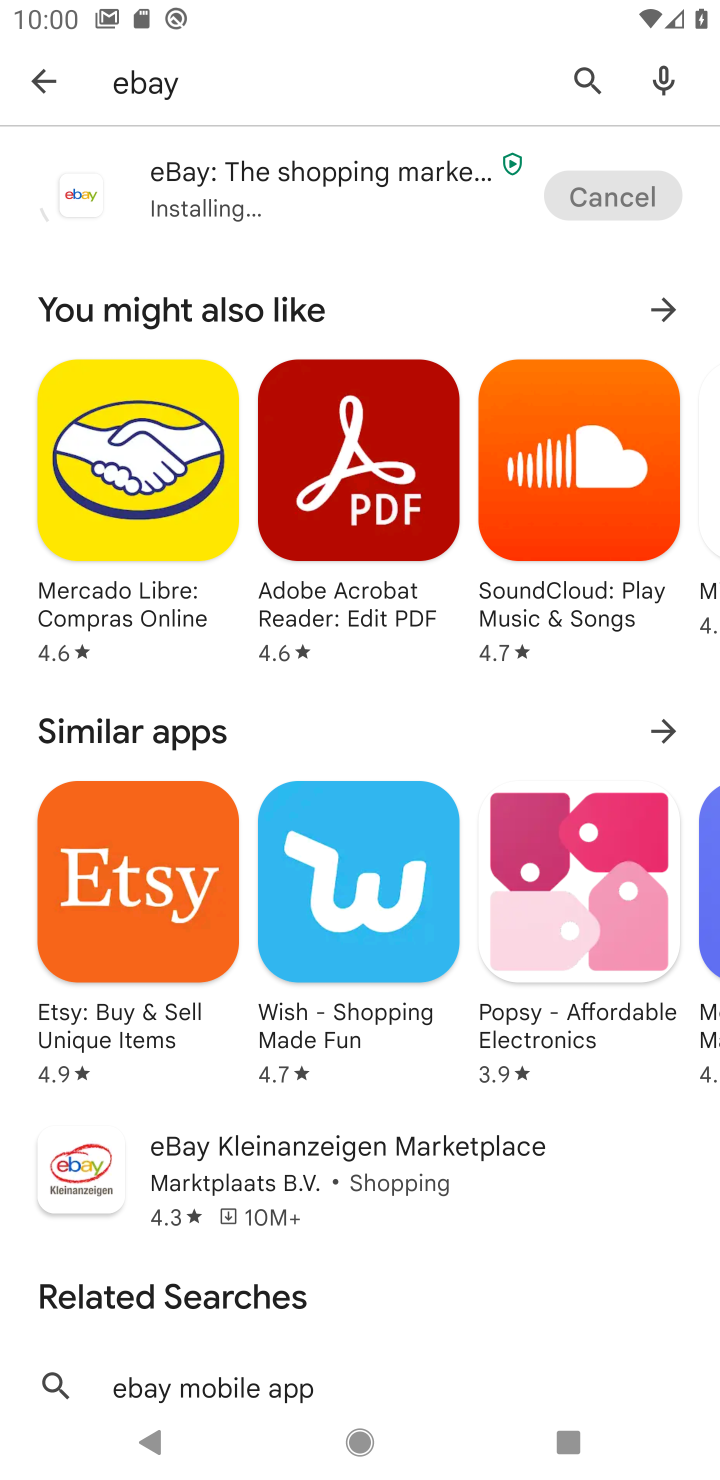
Step 34: task complete